Your task to perform on an android device: delete location history Image 0: 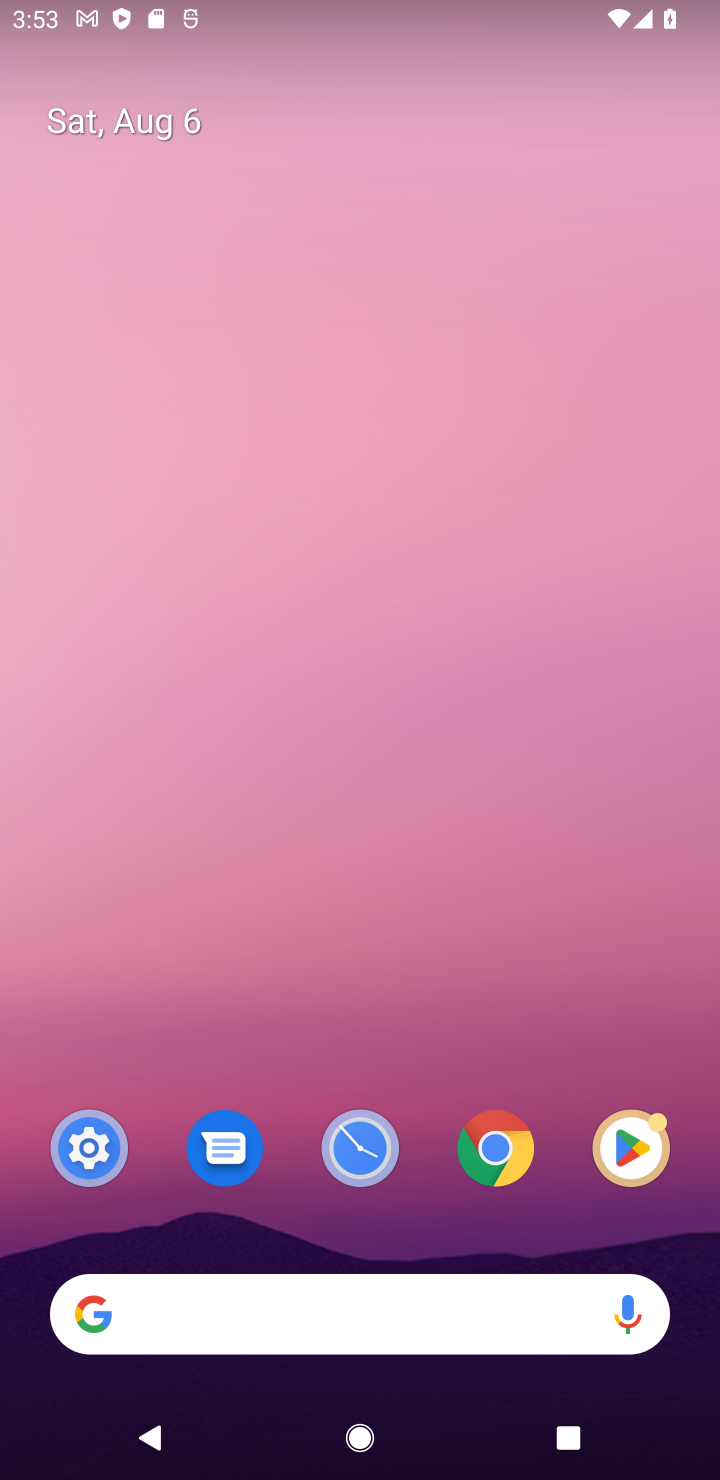
Step 0: press home button
Your task to perform on an android device: delete location history Image 1: 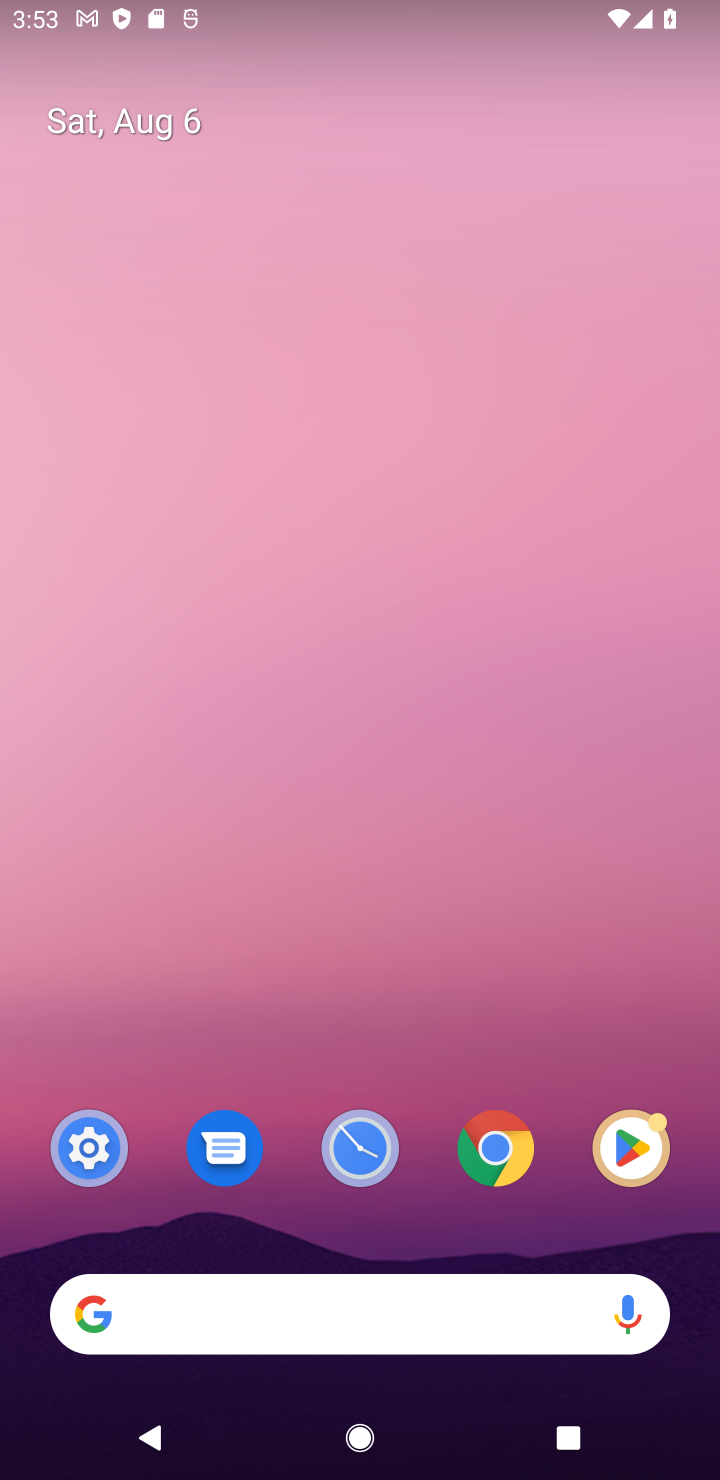
Step 1: click (381, 89)
Your task to perform on an android device: delete location history Image 2: 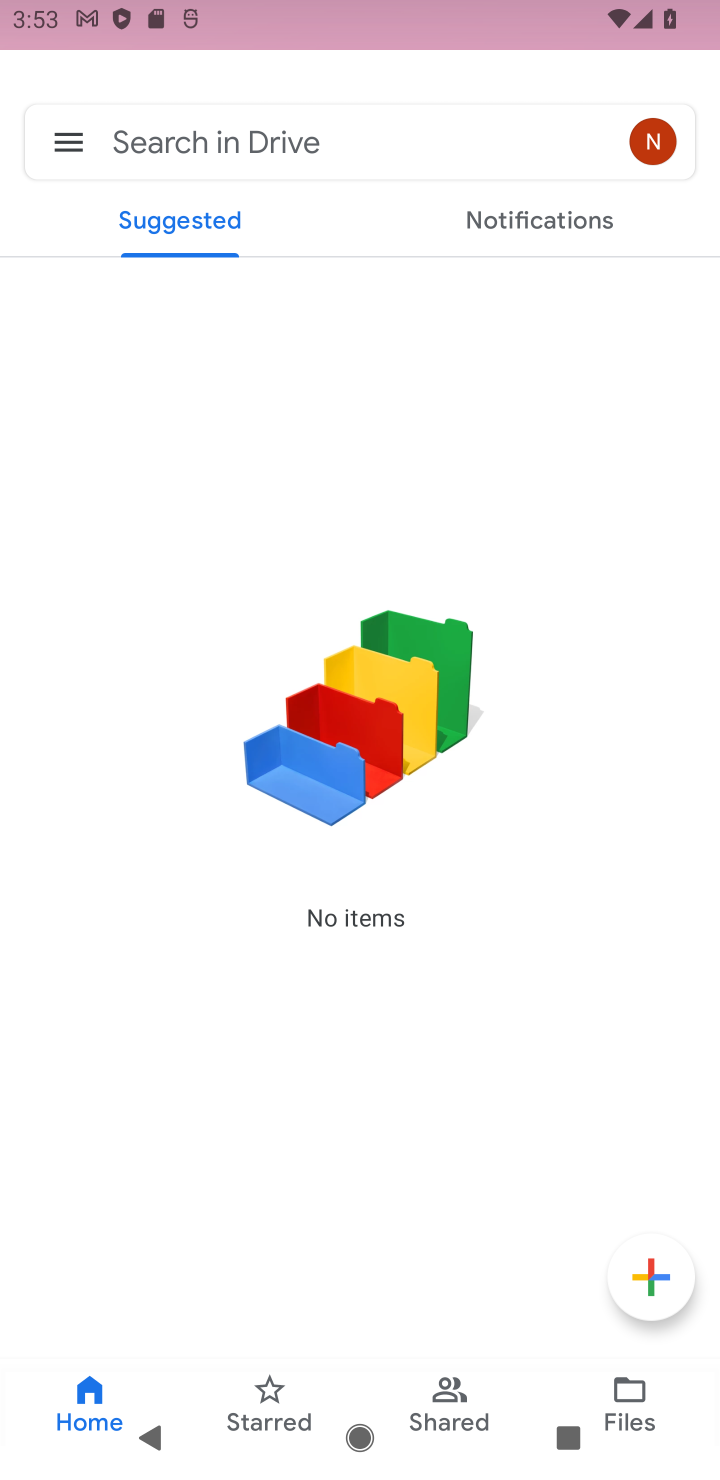
Step 2: drag from (320, 1099) to (374, 137)
Your task to perform on an android device: delete location history Image 3: 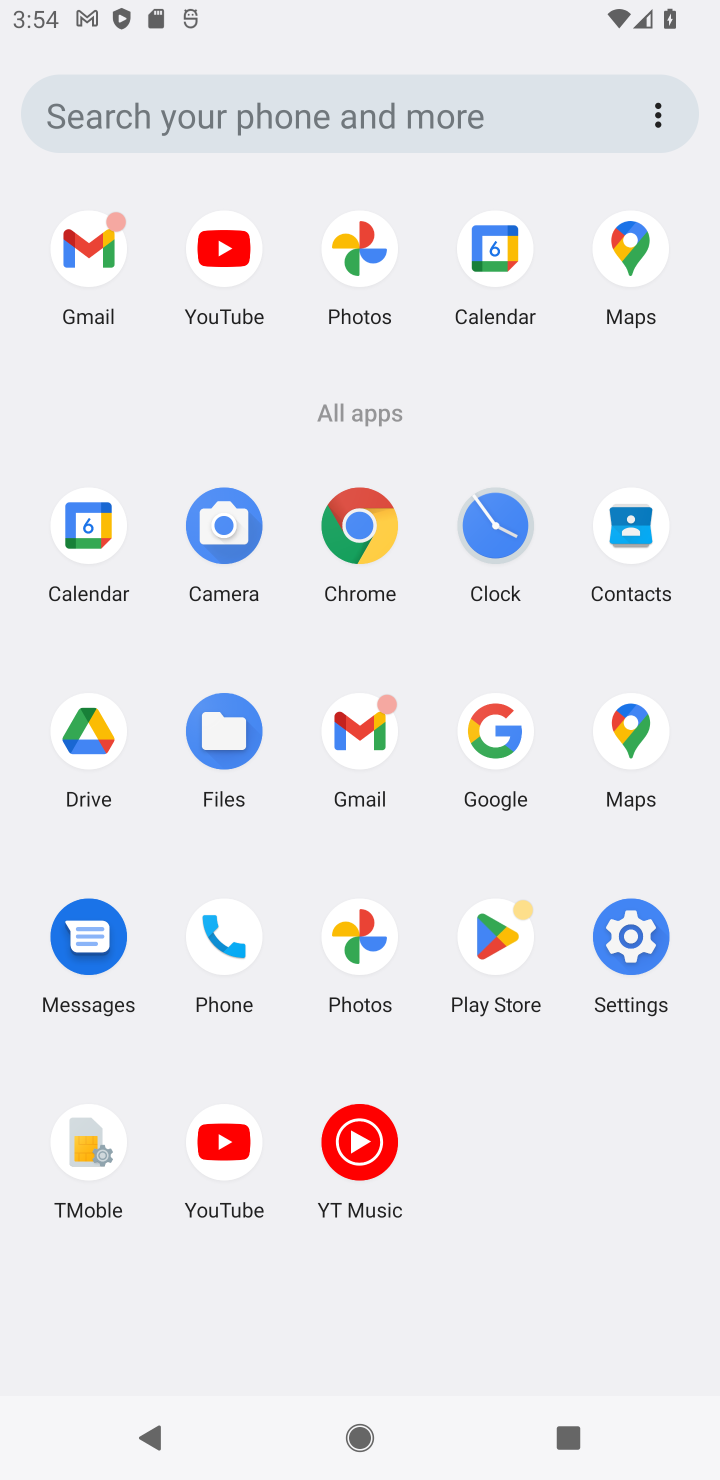
Step 3: drag from (260, 1131) to (331, 719)
Your task to perform on an android device: delete location history Image 4: 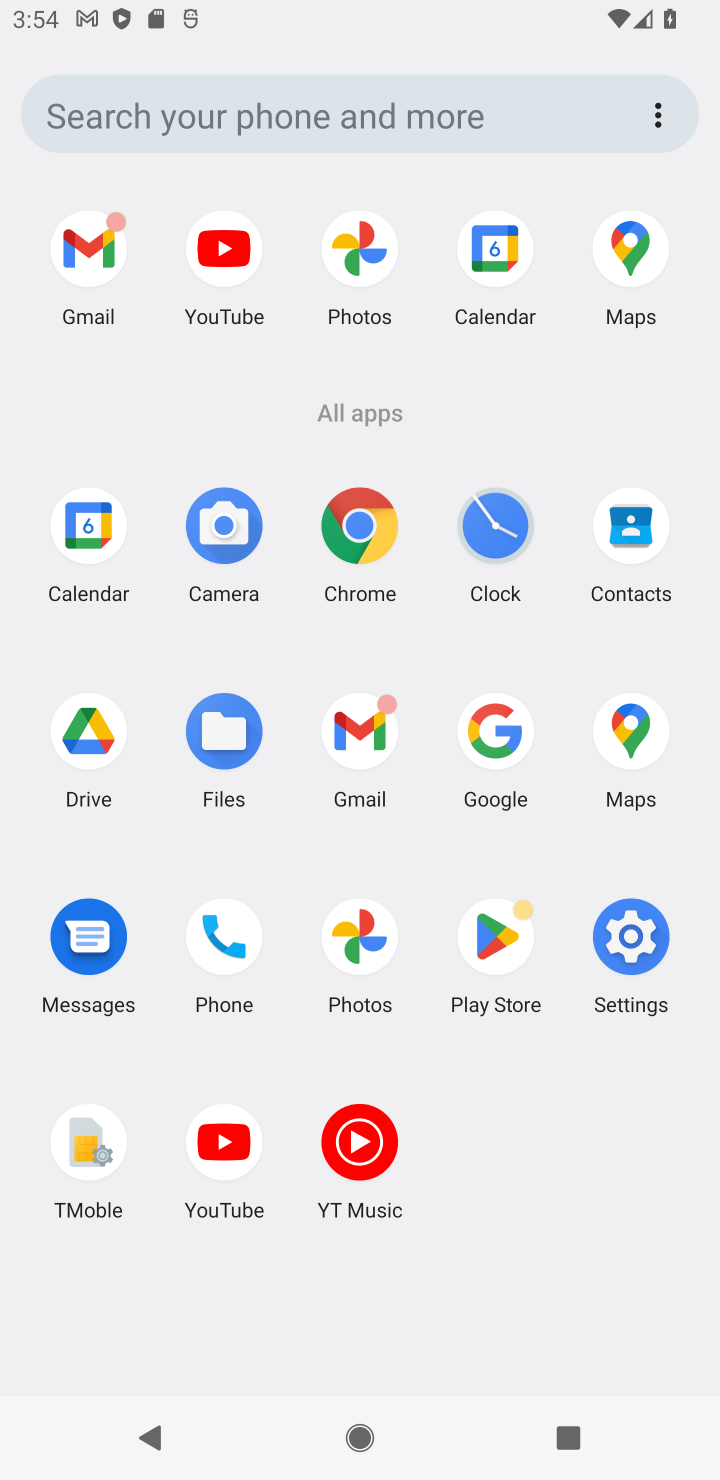
Step 4: click (616, 928)
Your task to perform on an android device: delete location history Image 5: 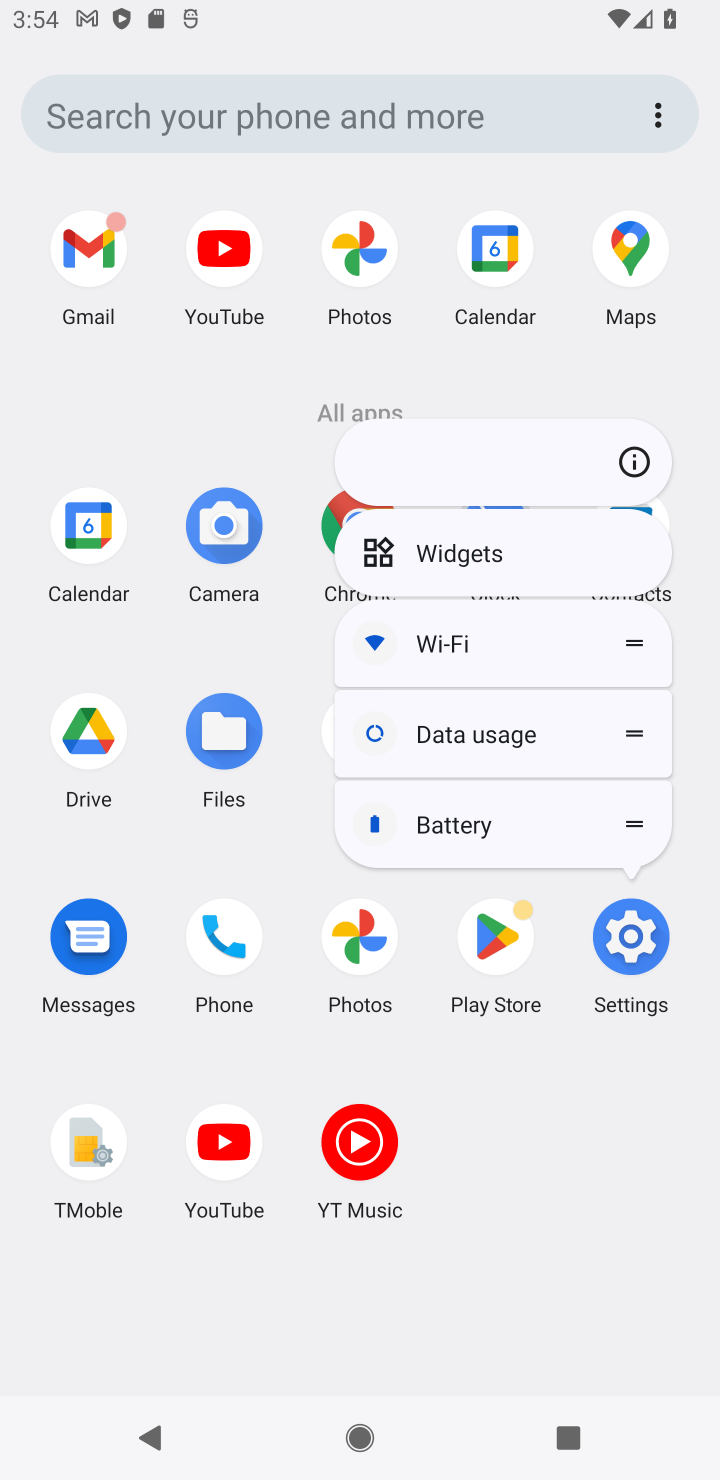
Step 5: click (635, 476)
Your task to perform on an android device: delete location history Image 6: 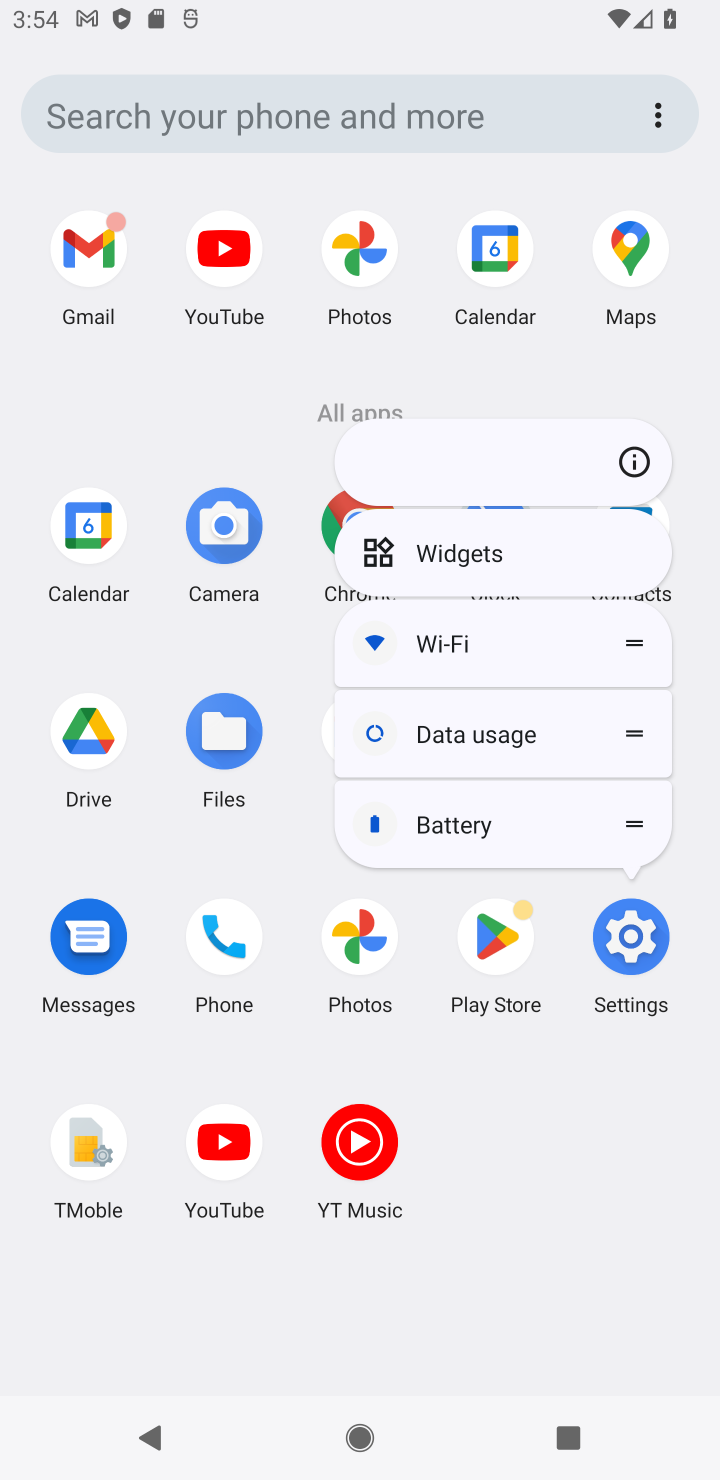
Step 6: click (633, 459)
Your task to perform on an android device: delete location history Image 7: 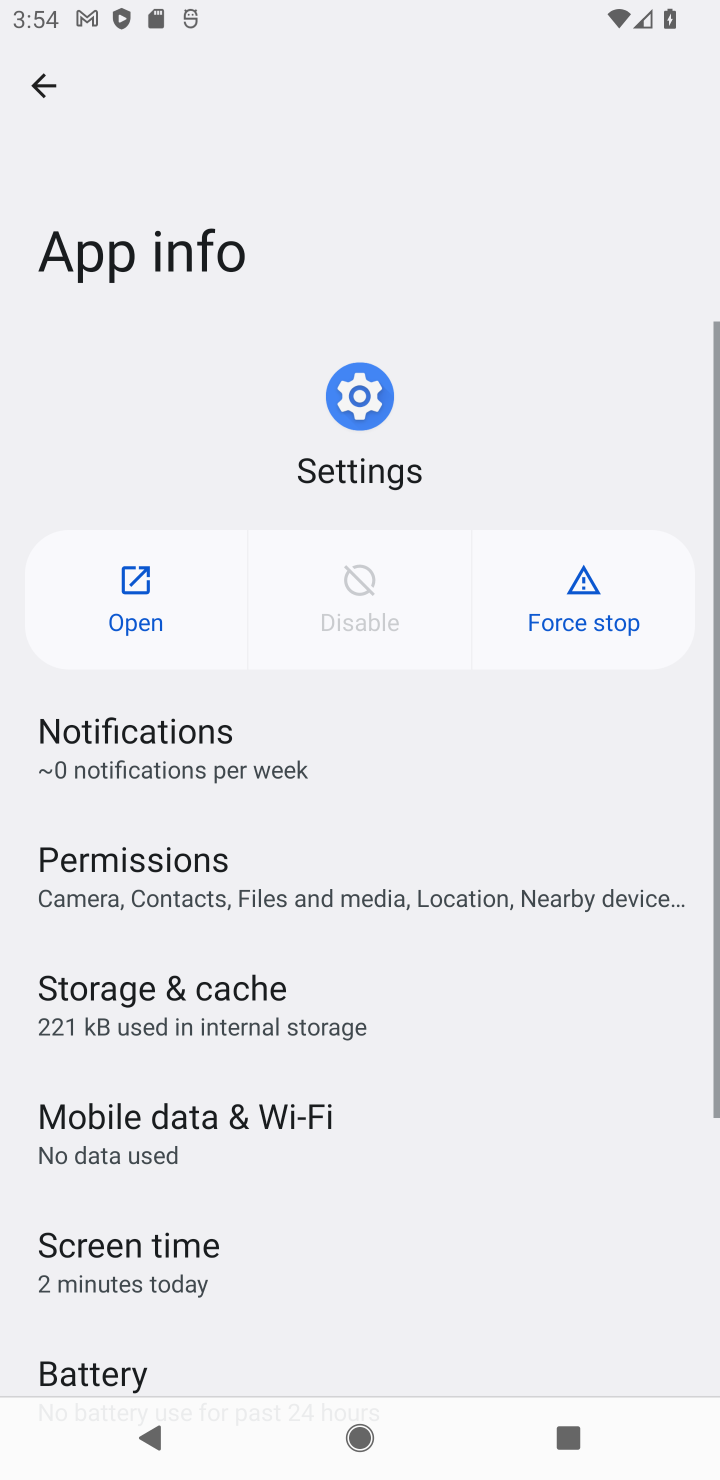
Step 7: click (119, 632)
Your task to perform on an android device: delete location history Image 8: 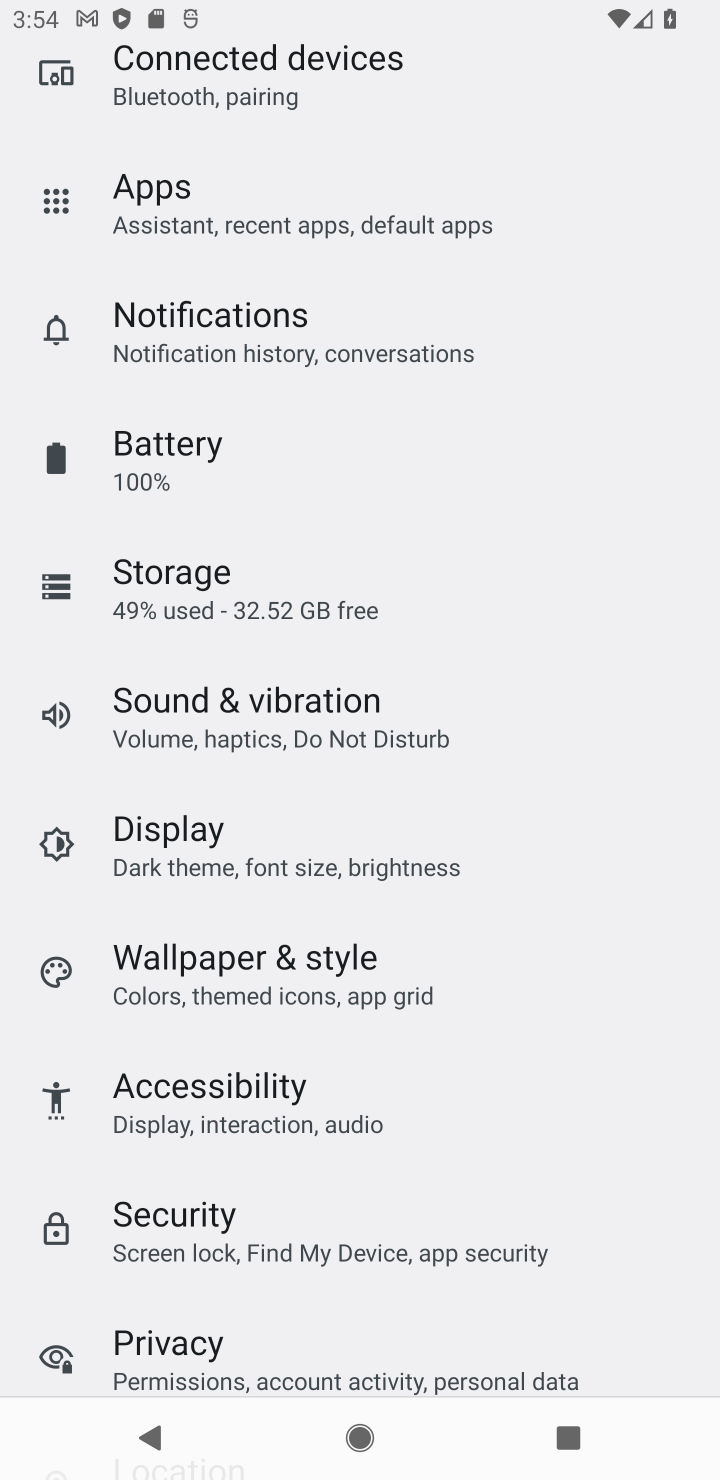
Step 8: drag from (401, 586) to (328, 1475)
Your task to perform on an android device: delete location history Image 9: 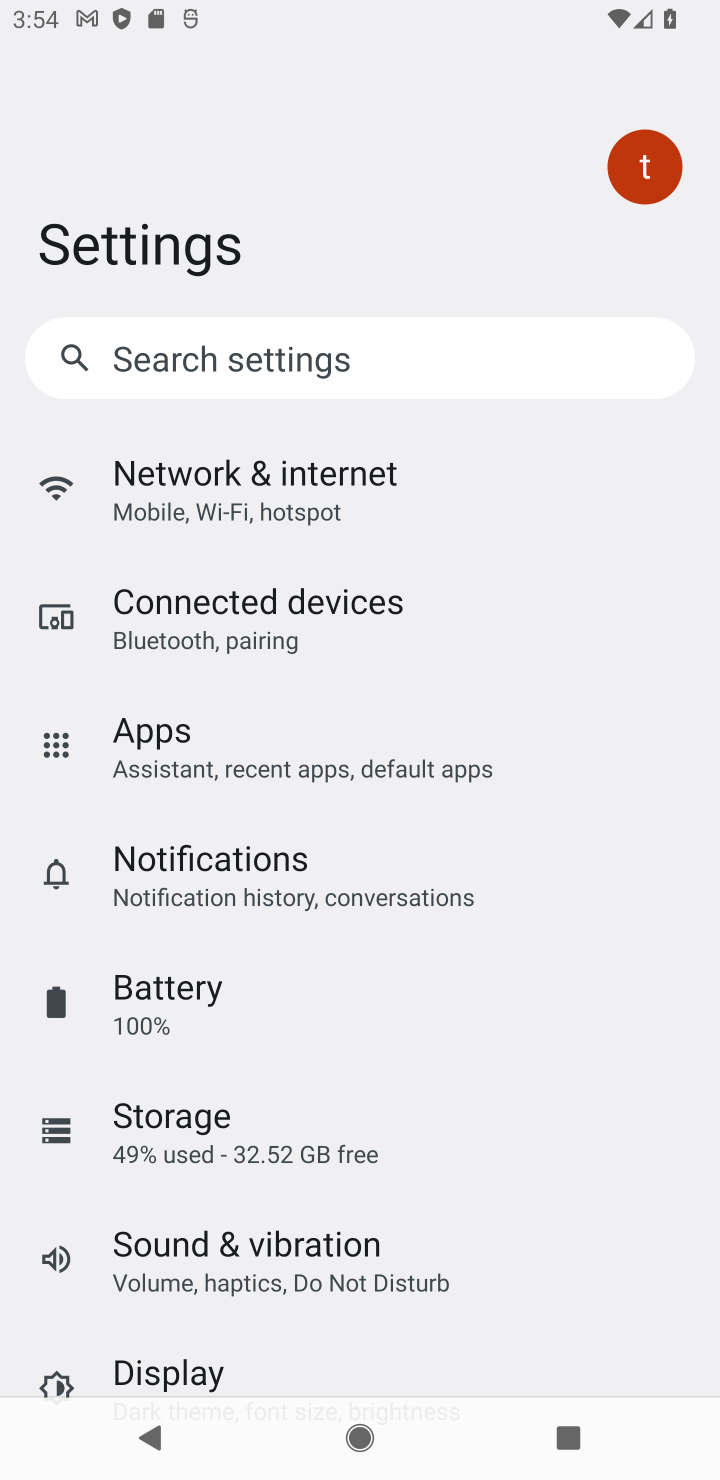
Step 9: drag from (279, 1181) to (279, 339)
Your task to perform on an android device: delete location history Image 10: 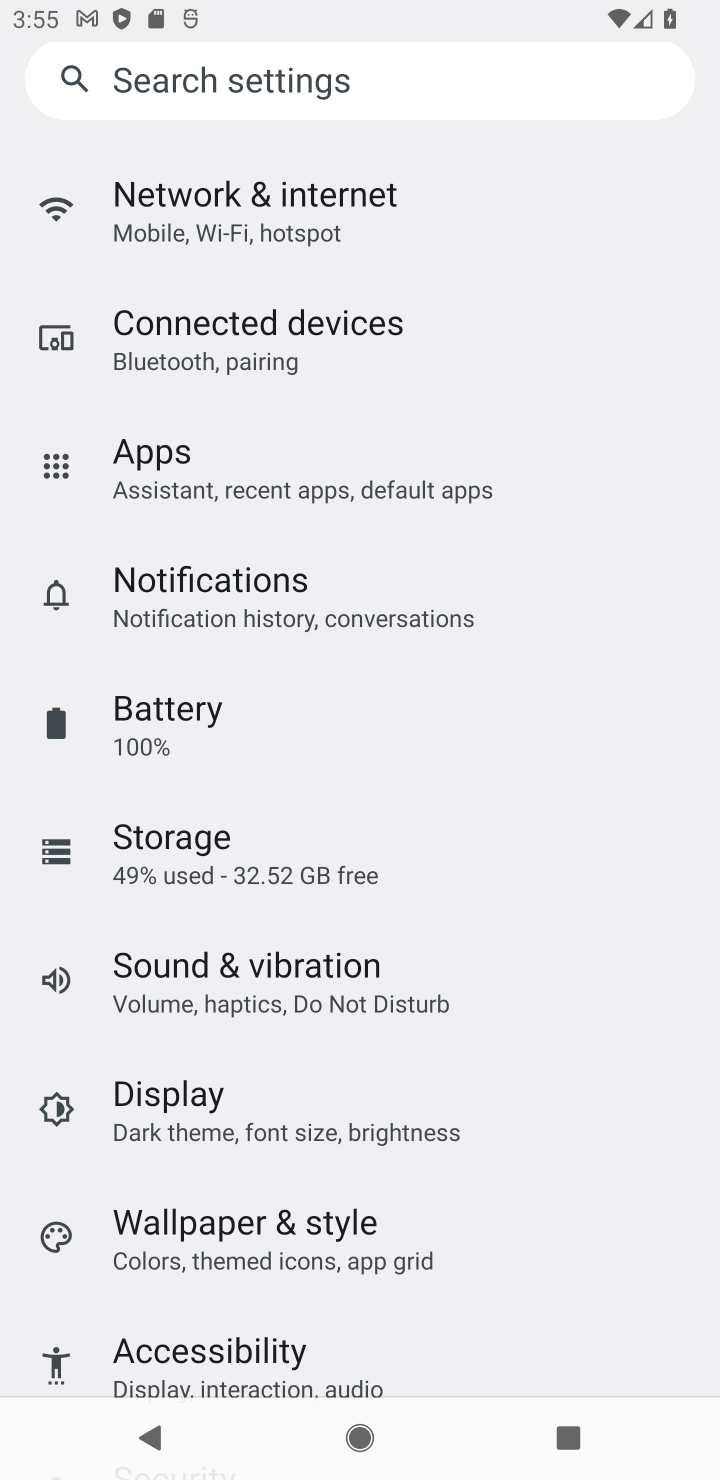
Step 10: drag from (303, 1193) to (386, 538)
Your task to perform on an android device: delete location history Image 11: 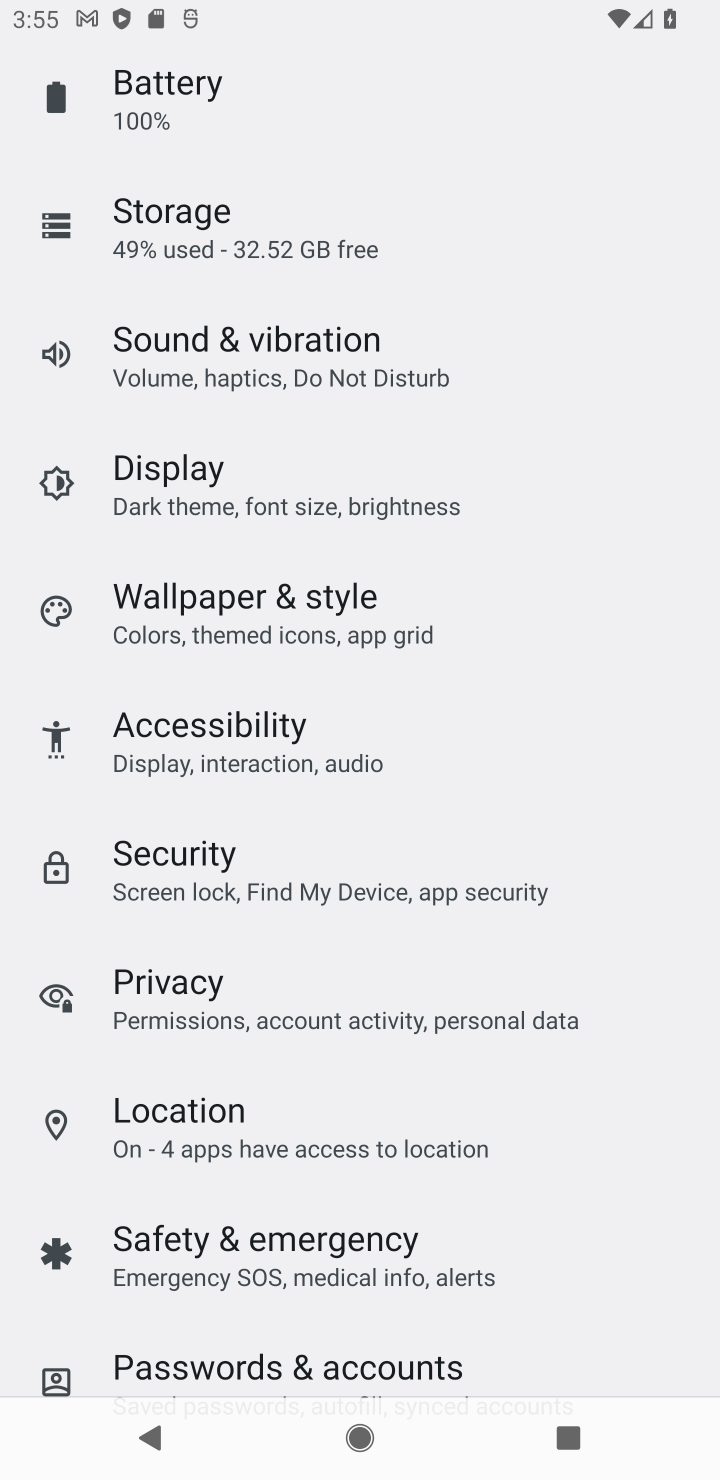
Step 11: click (213, 1135)
Your task to perform on an android device: delete location history Image 12: 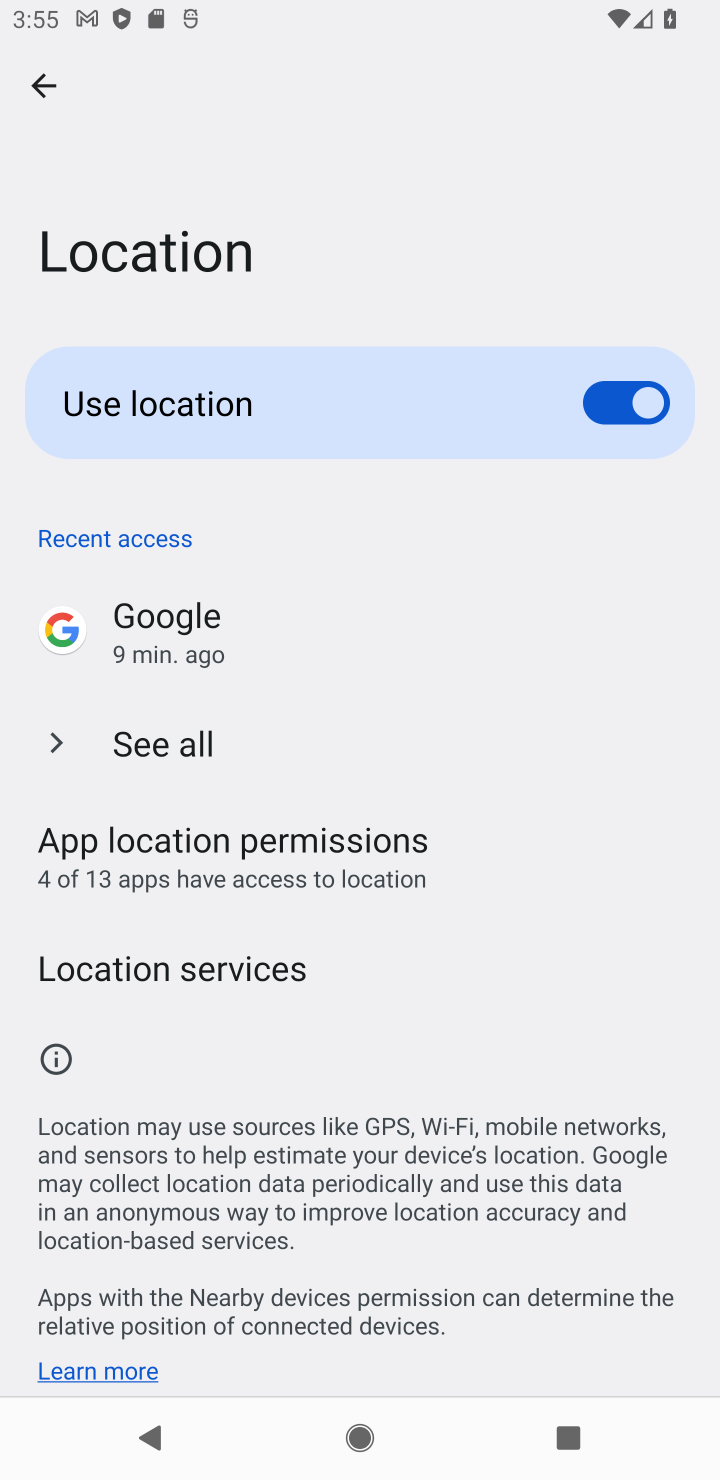
Step 12: click (152, 988)
Your task to perform on an android device: delete location history Image 13: 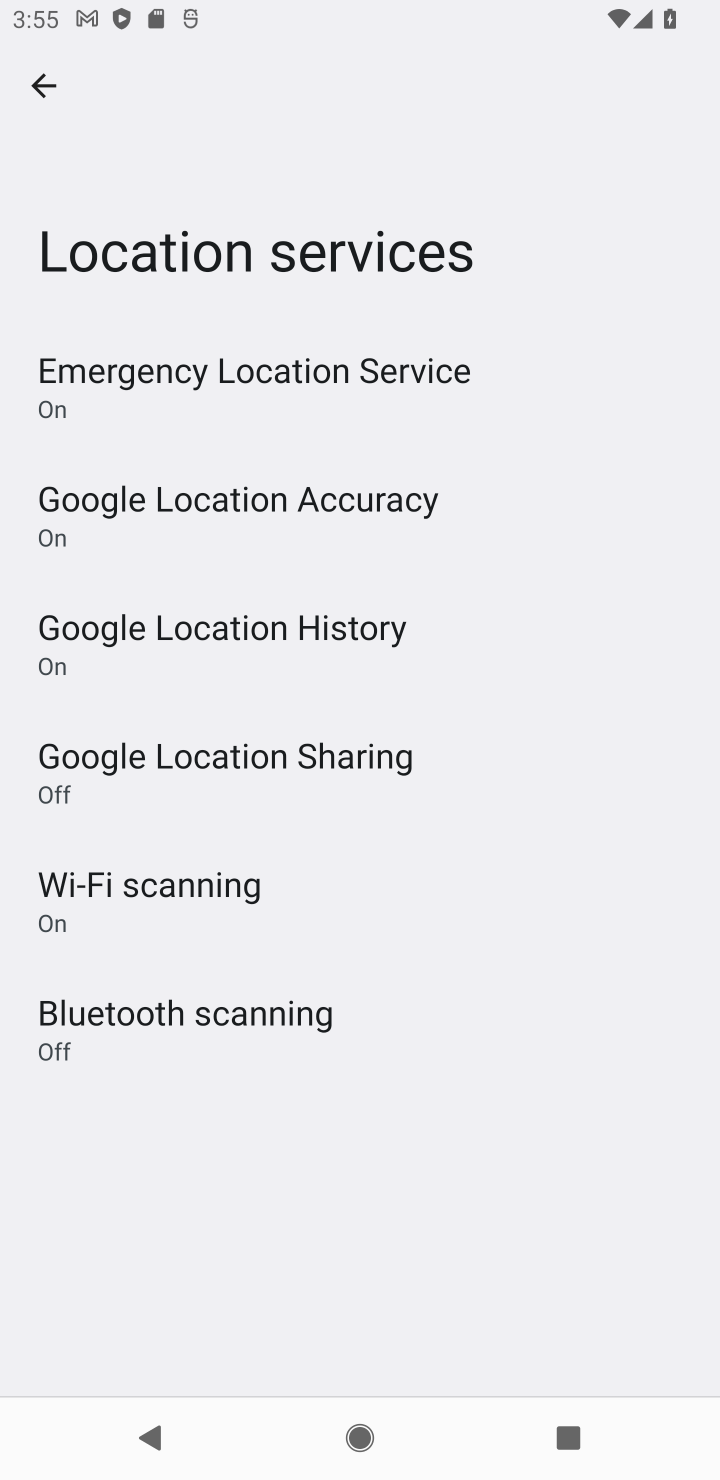
Step 13: click (338, 619)
Your task to perform on an android device: delete location history Image 14: 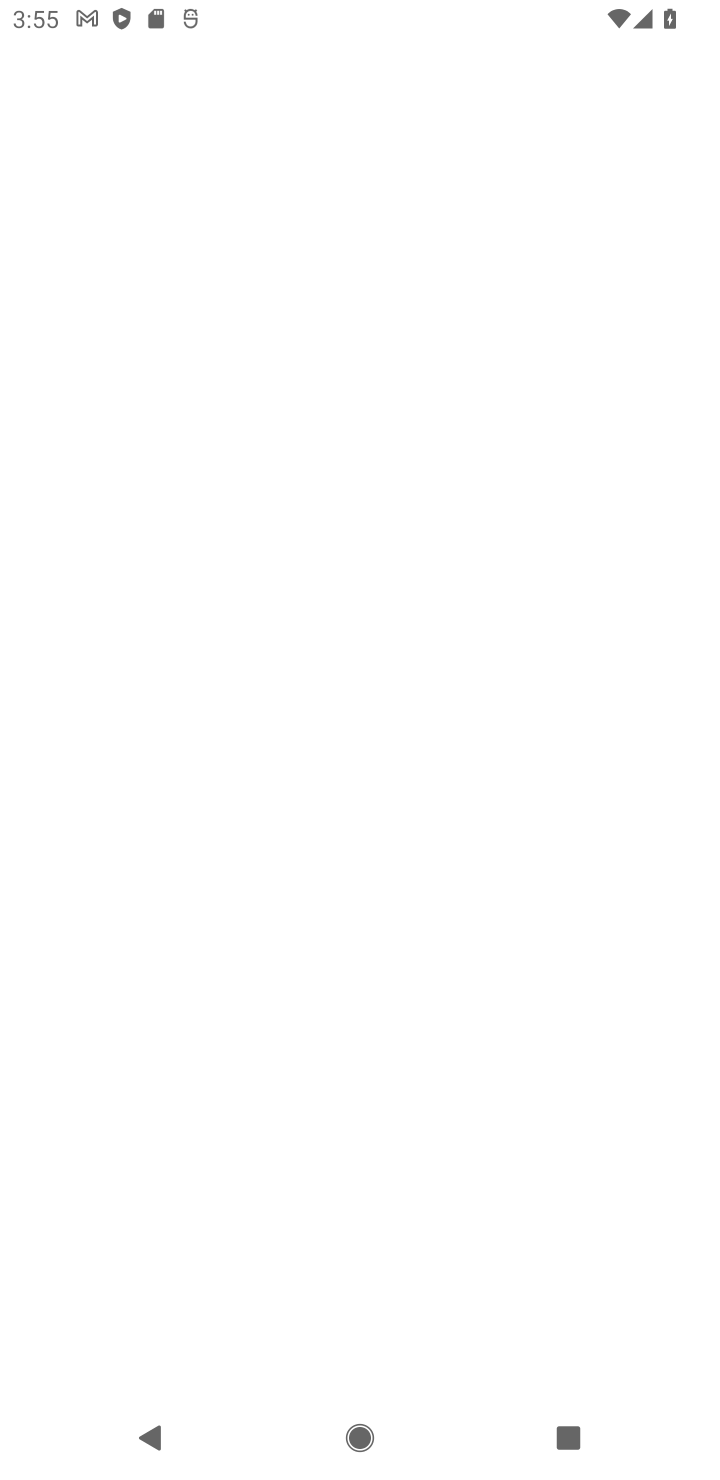
Step 14: drag from (386, 859) to (409, 295)
Your task to perform on an android device: delete location history Image 15: 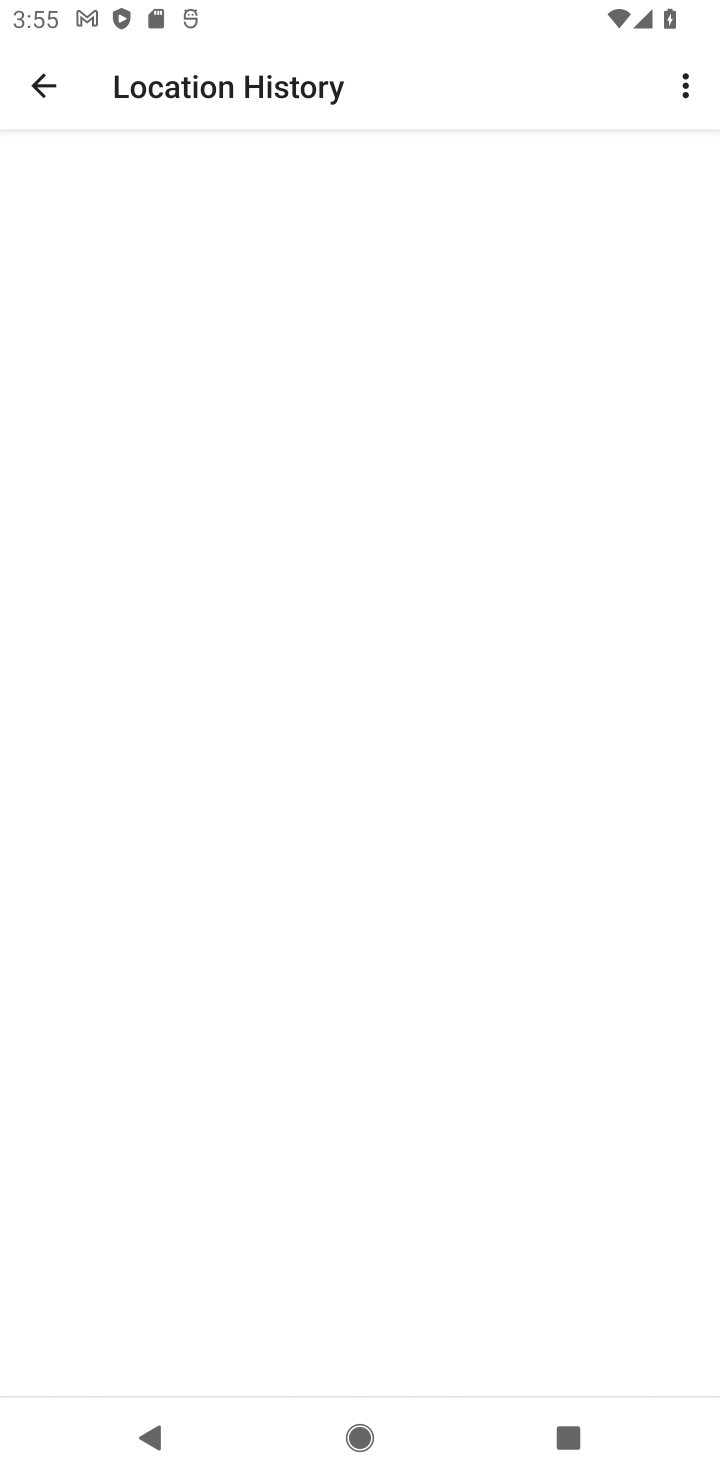
Step 15: drag from (336, 922) to (454, 290)
Your task to perform on an android device: delete location history Image 16: 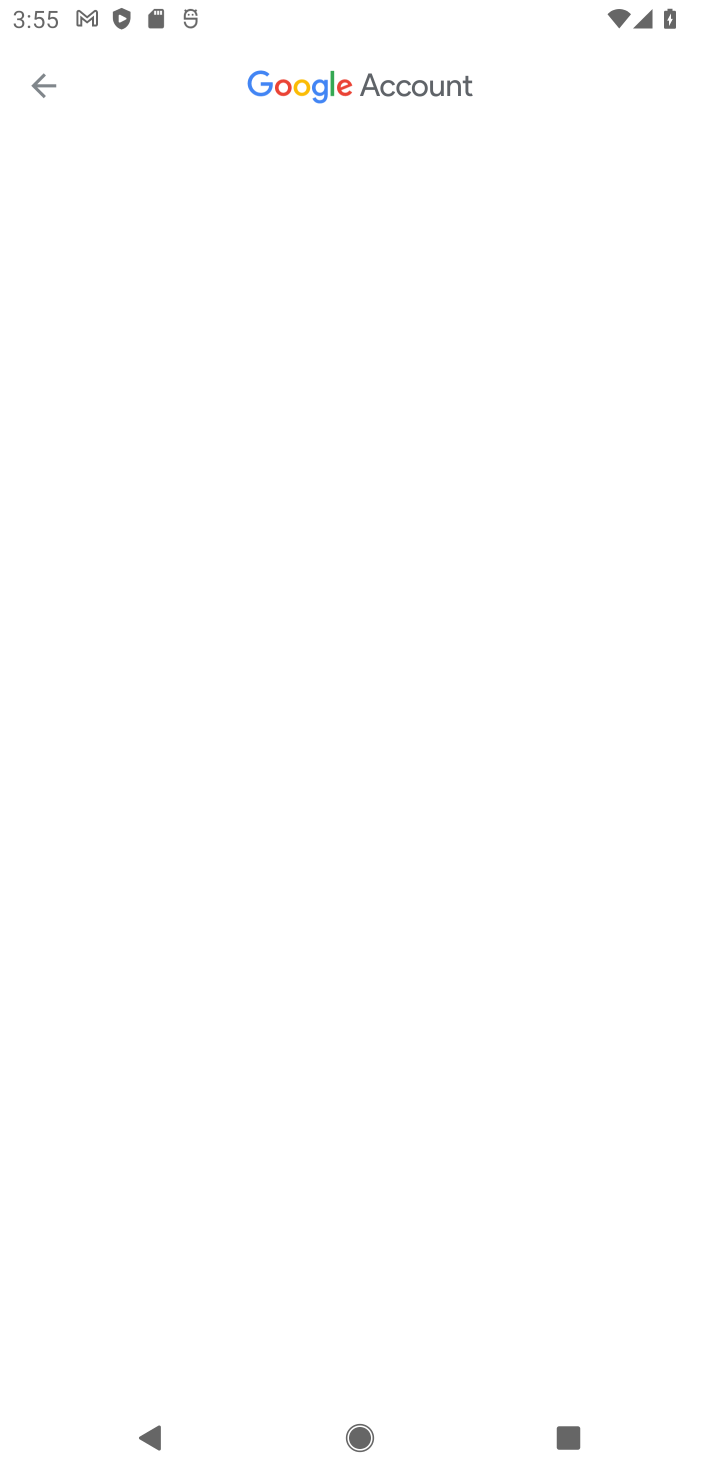
Step 16: drag from (297, 990) to (521, 405)
Your task to perform on an android device: delete location history Image 17: 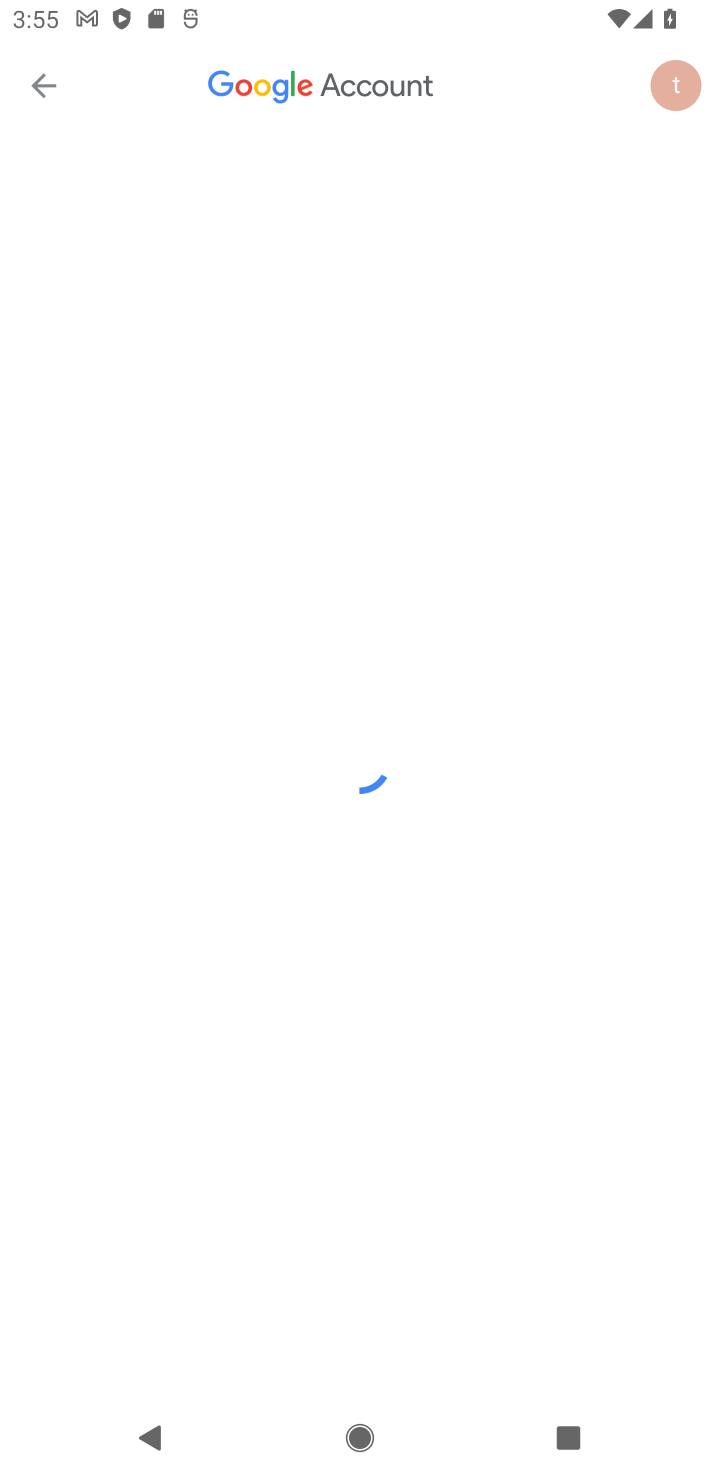
Step 17: drag from (360, 1007) to (432, 438)
Your task to perform on an android device: delete location history Image 18: 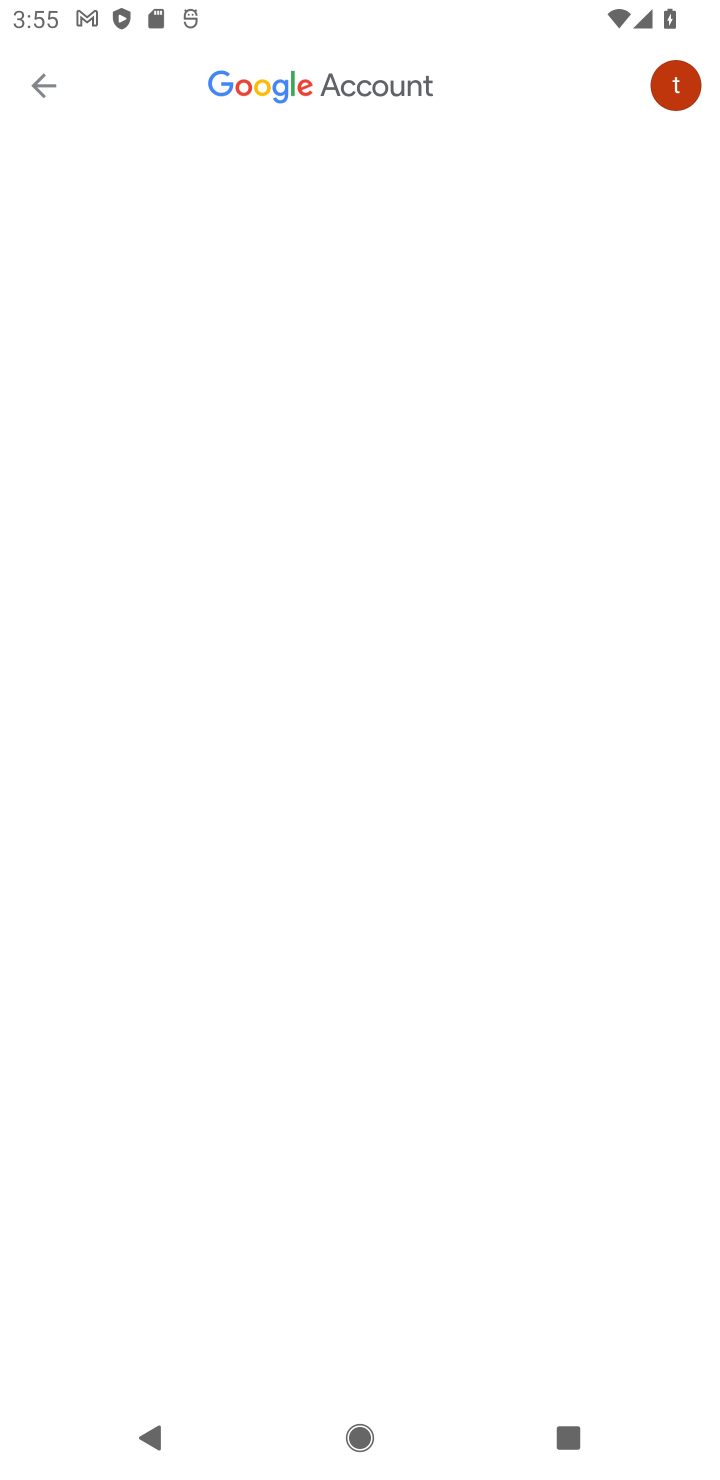
Step 18: drag from (369, 1023) to (423, 436)
Your task to perform on an android device: delete location history Image 19: 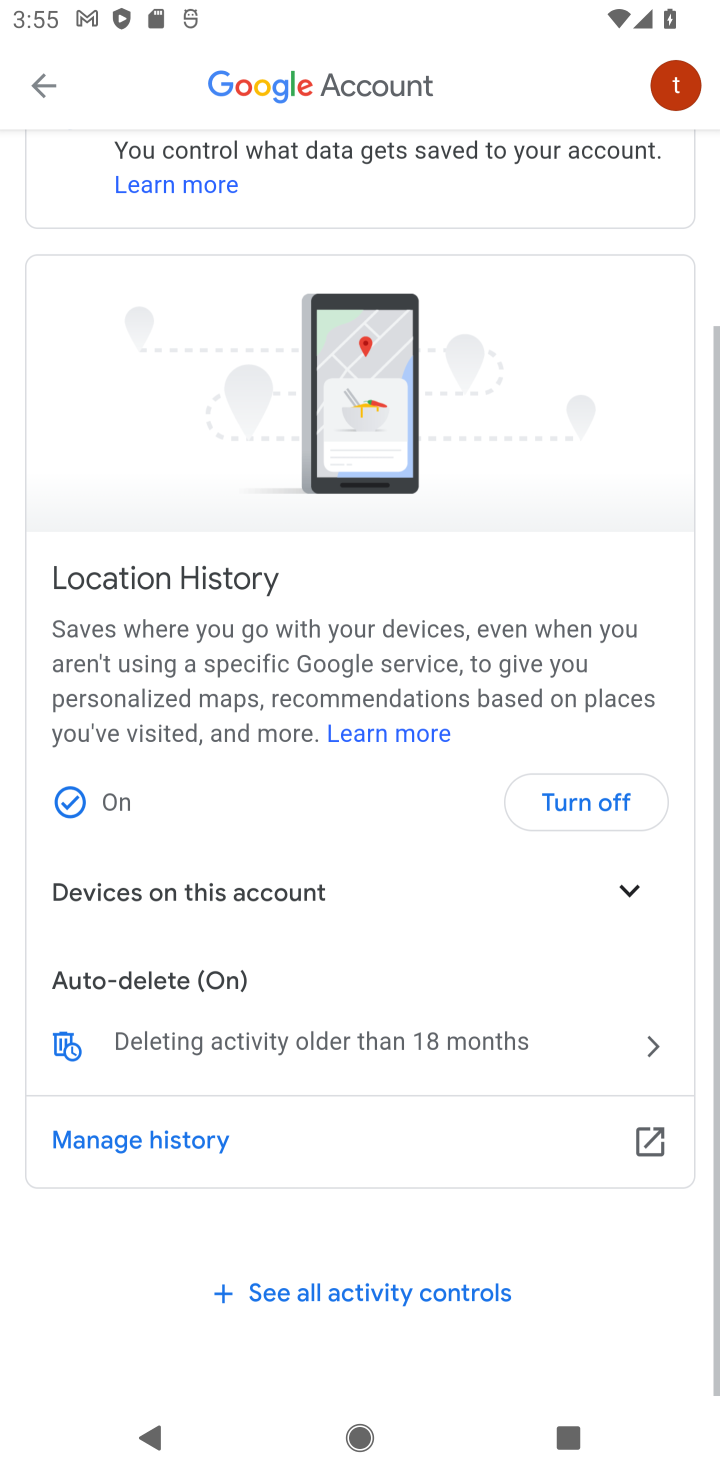
Step 19: drag from (371, 940) to (449, 425)
Your task to perform on an android device: delete location history Image 20: 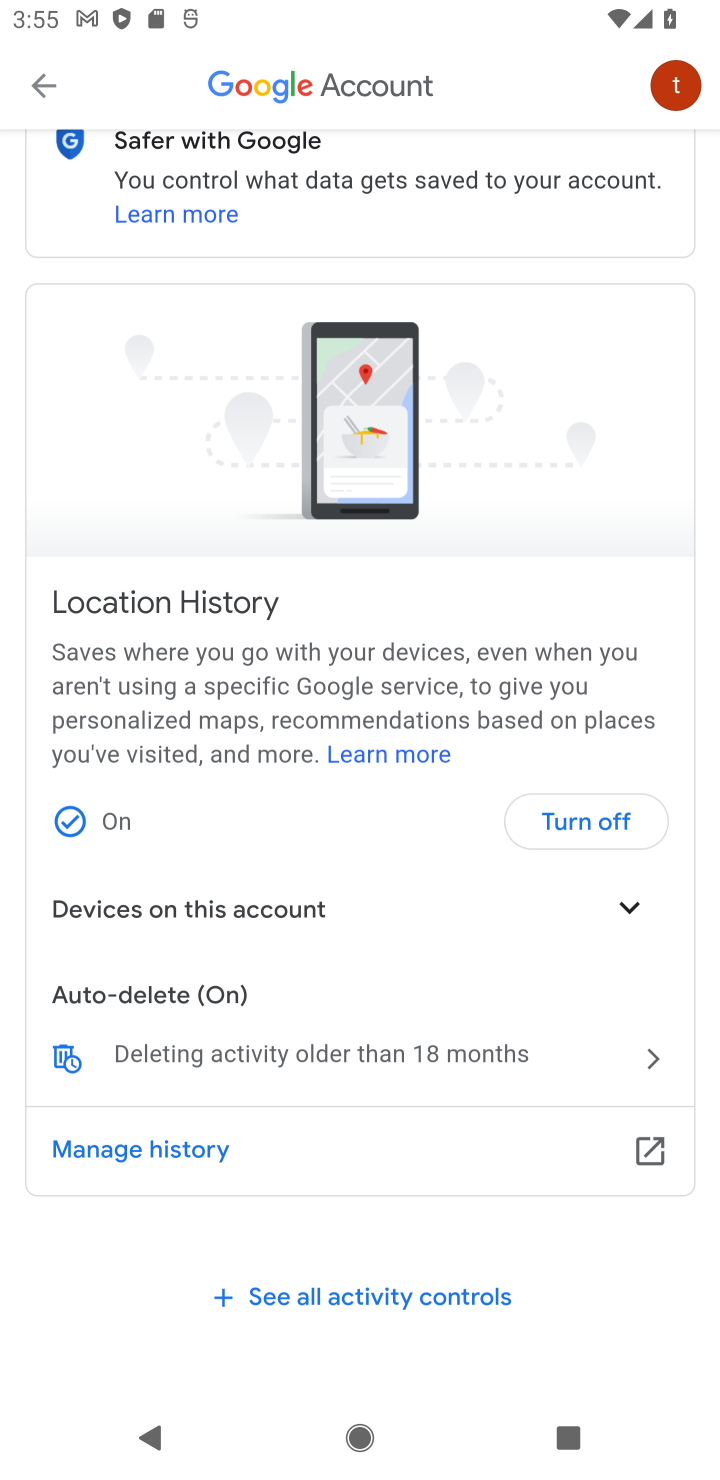
Step 20: drag from (322, 901) to (311, 416)
Your task to perform on an android device: delete location history Image 21: 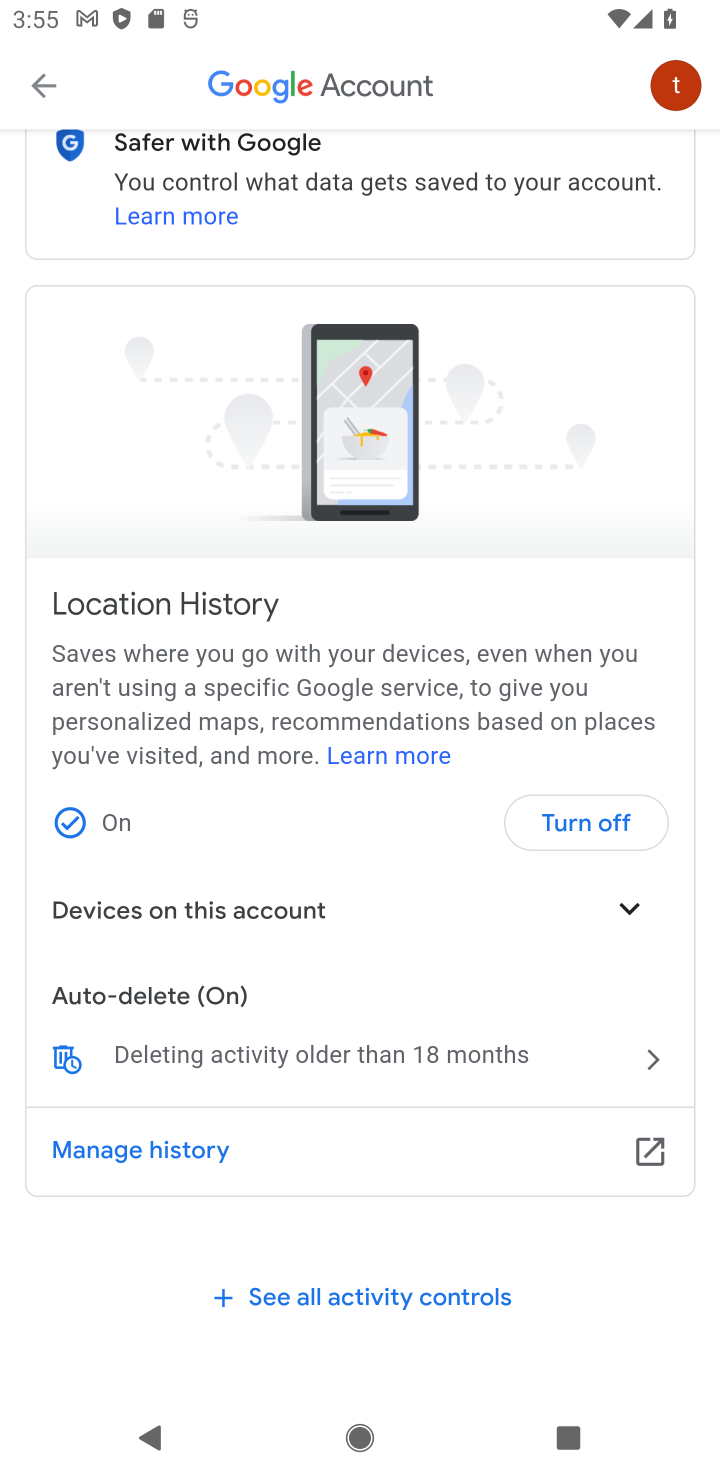
Step 21: click (22, 1050)
Your task to perform on an android device: delete location history Image 22: 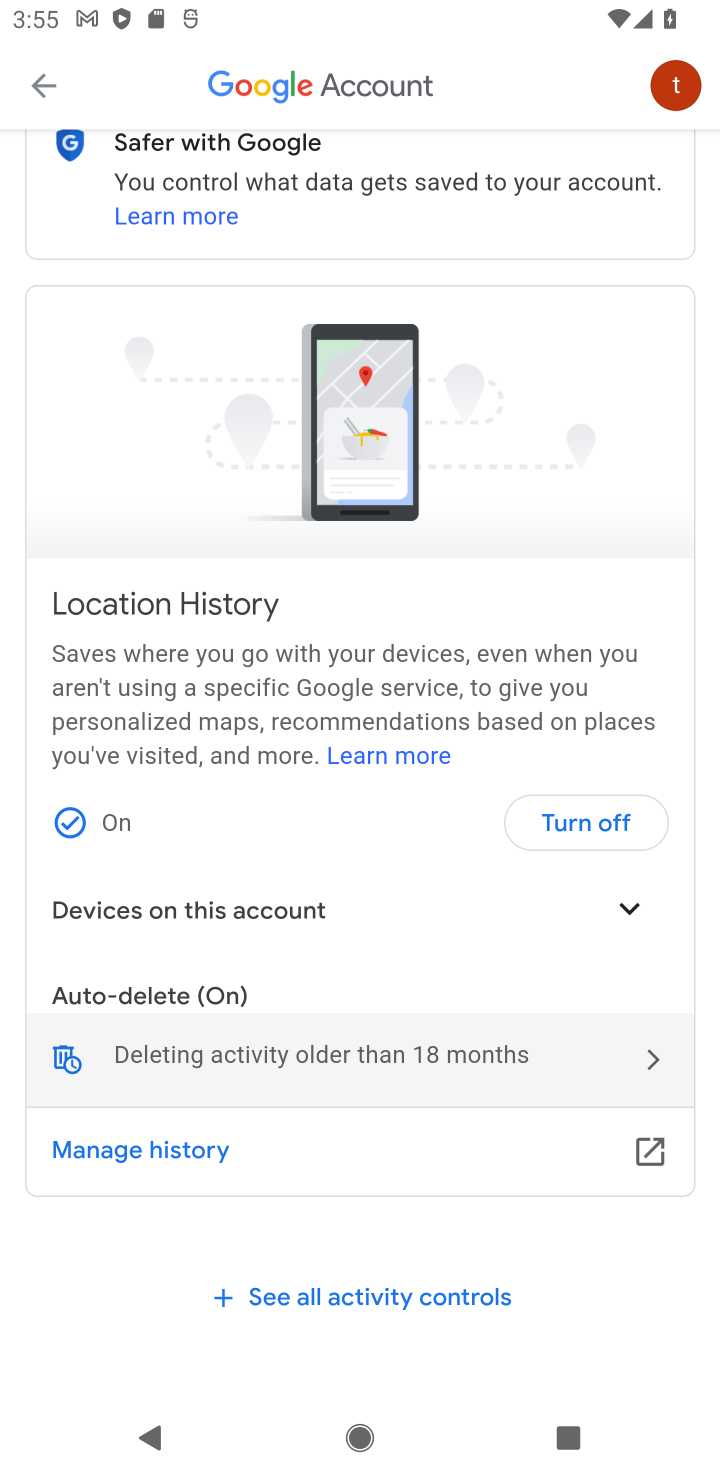
Step 22: click (82, 1074)
Your task to perform on an android device: delete location history Image 23: 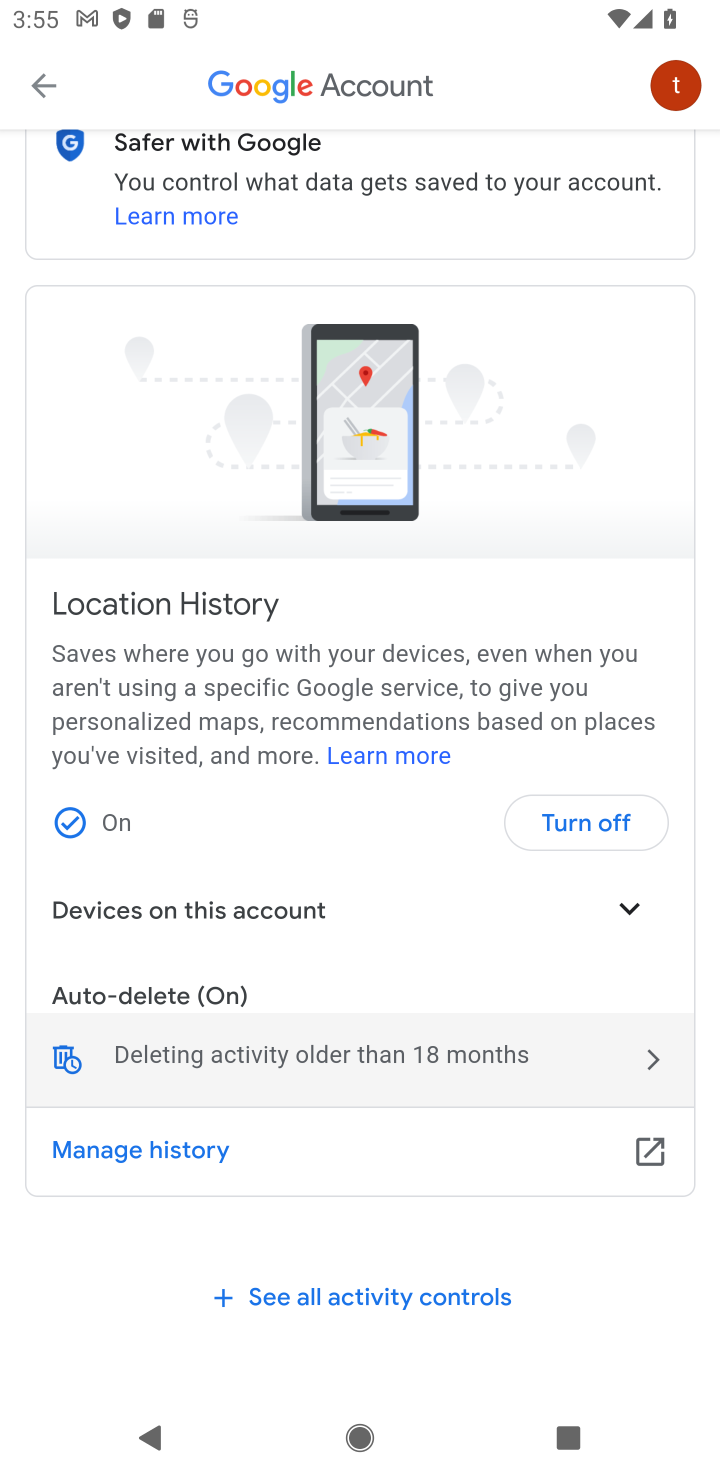
Step 23: click (76, 1072)
Your task to perform on an android device: delete location history Image 24: 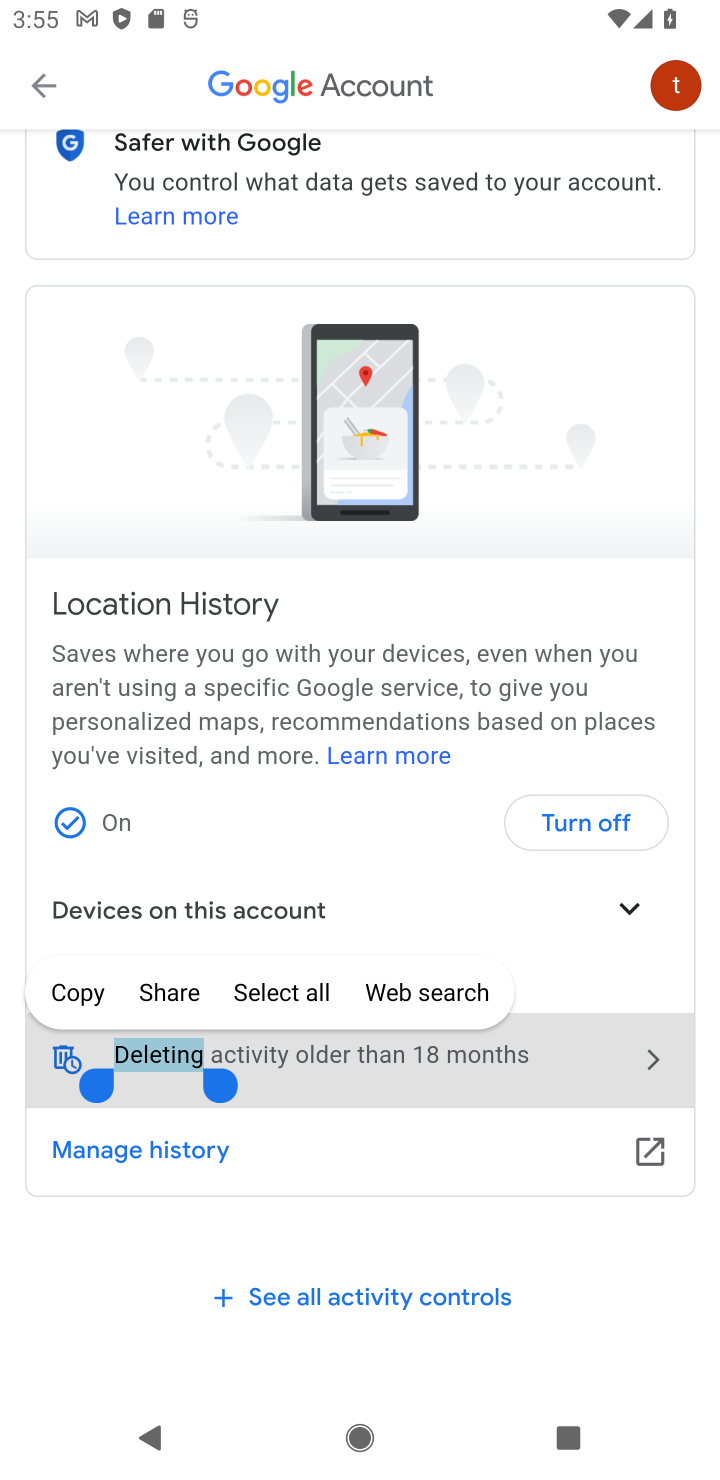
Step 24: click (63, 1051)
Your task to perform on an android device: delete location history Image 25: 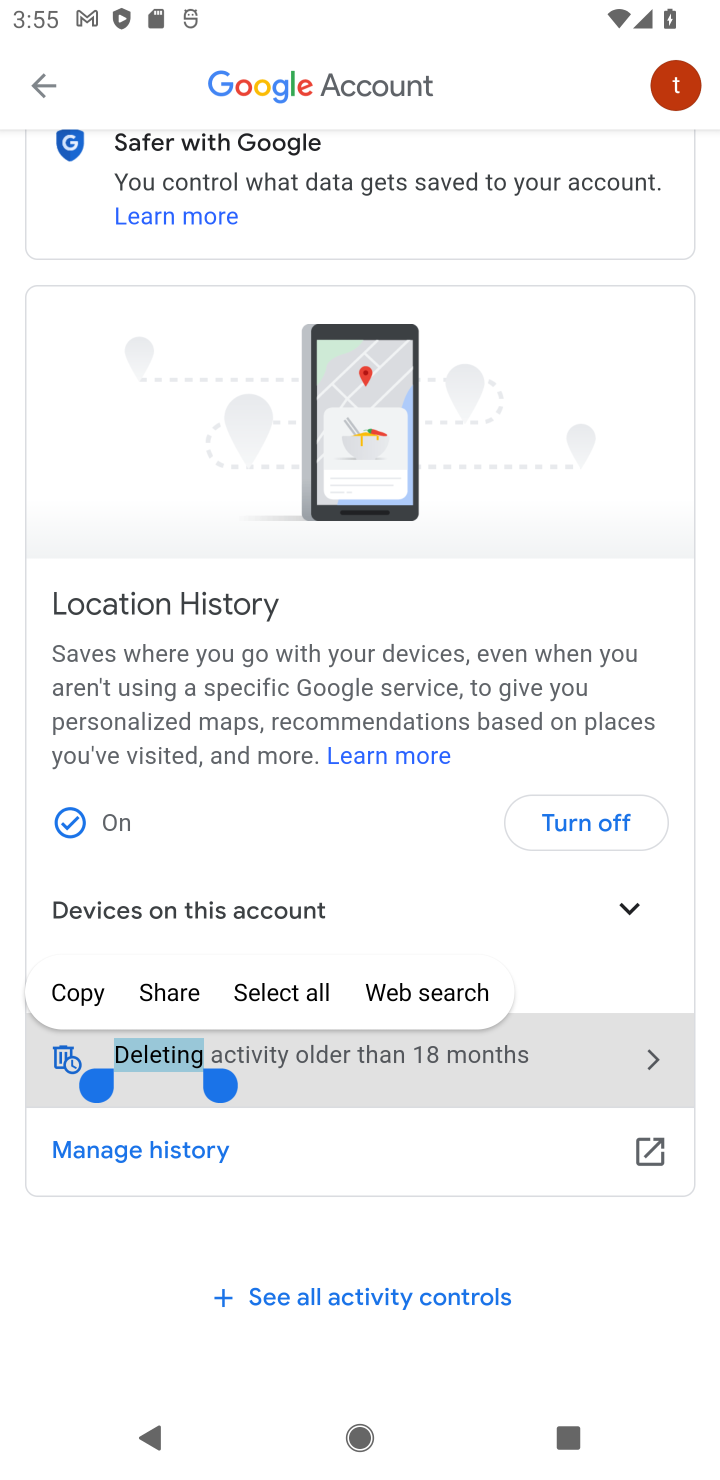
Step 25: click (487, 1066)
Your task to perform on an android device: delete location history Image 26: 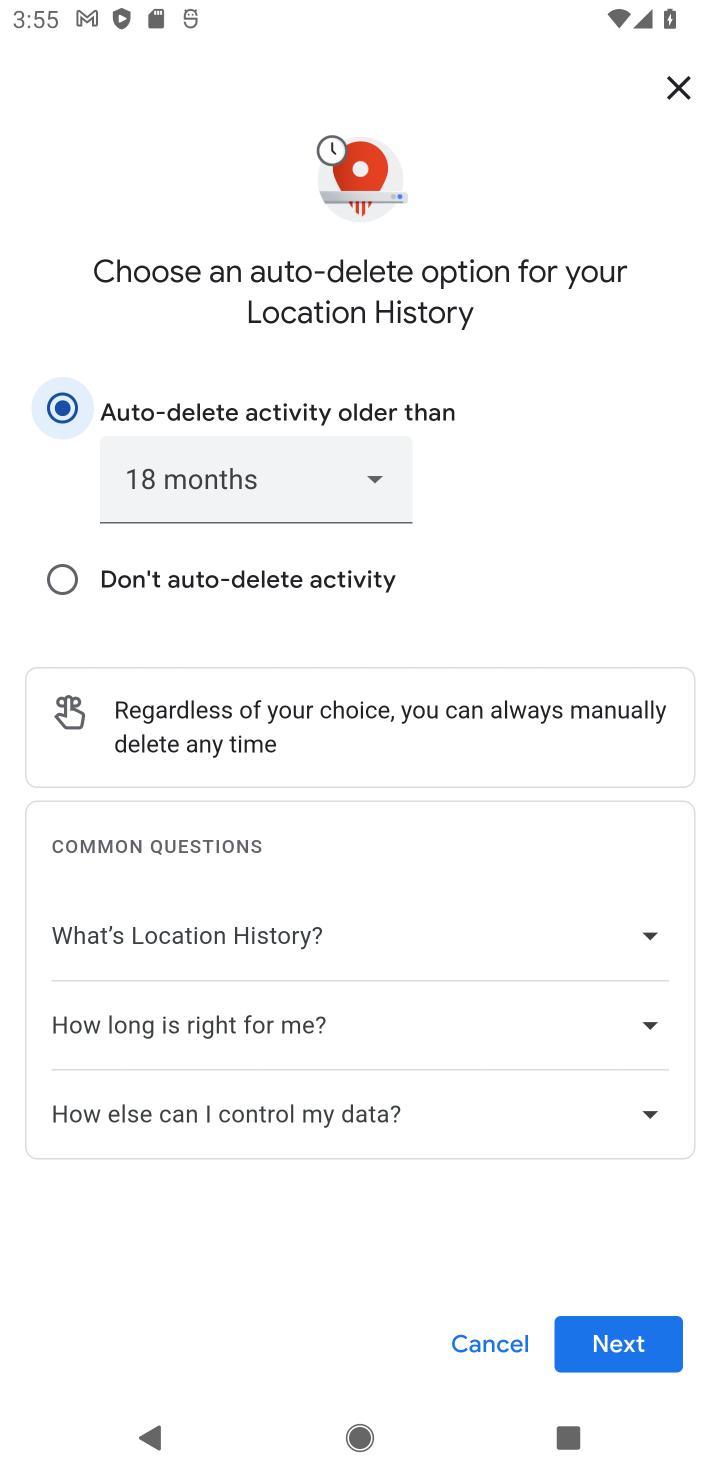
Step 26: drag from (414, 1082) to (509, 579)
Your task to perform on an android device: delete location history Image 27: 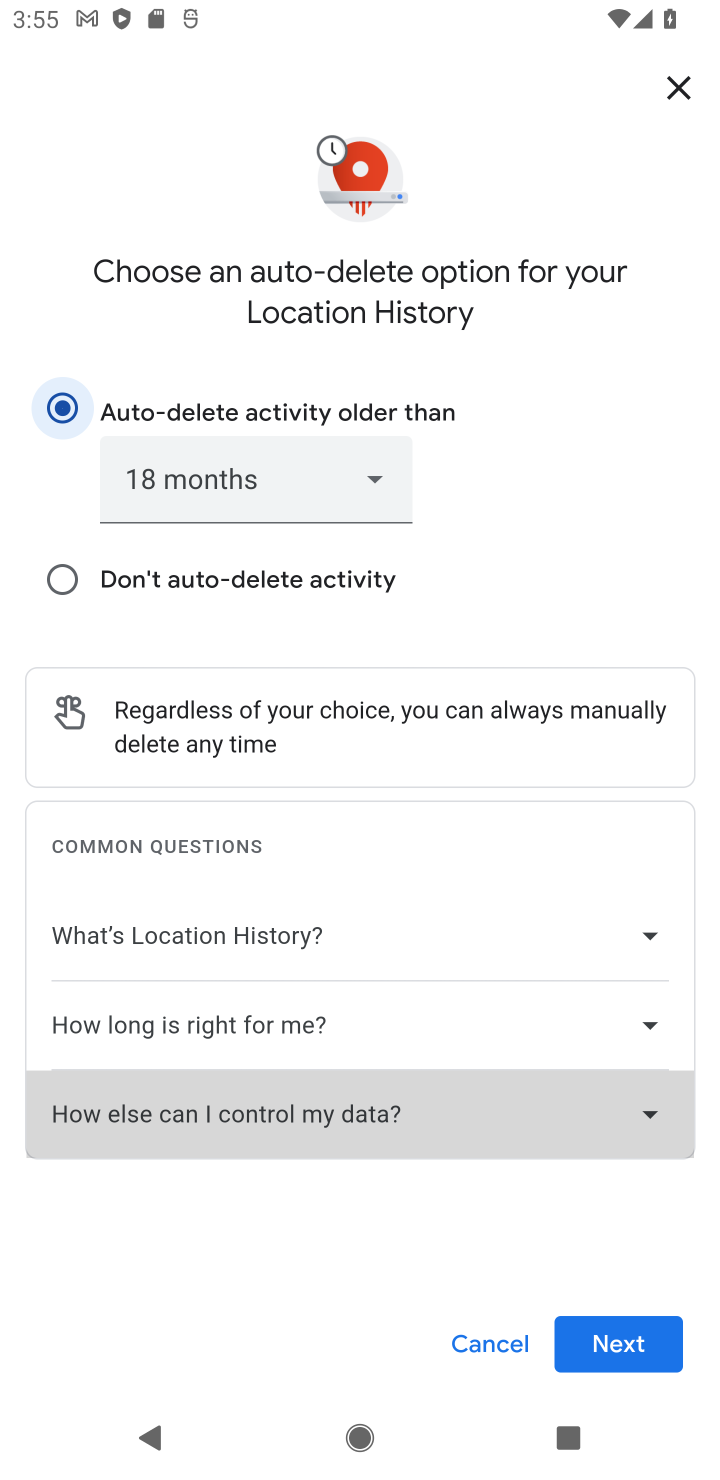
Step 27: click (649, 1326)
Your task to perform on an android device: delete location history Image 28: 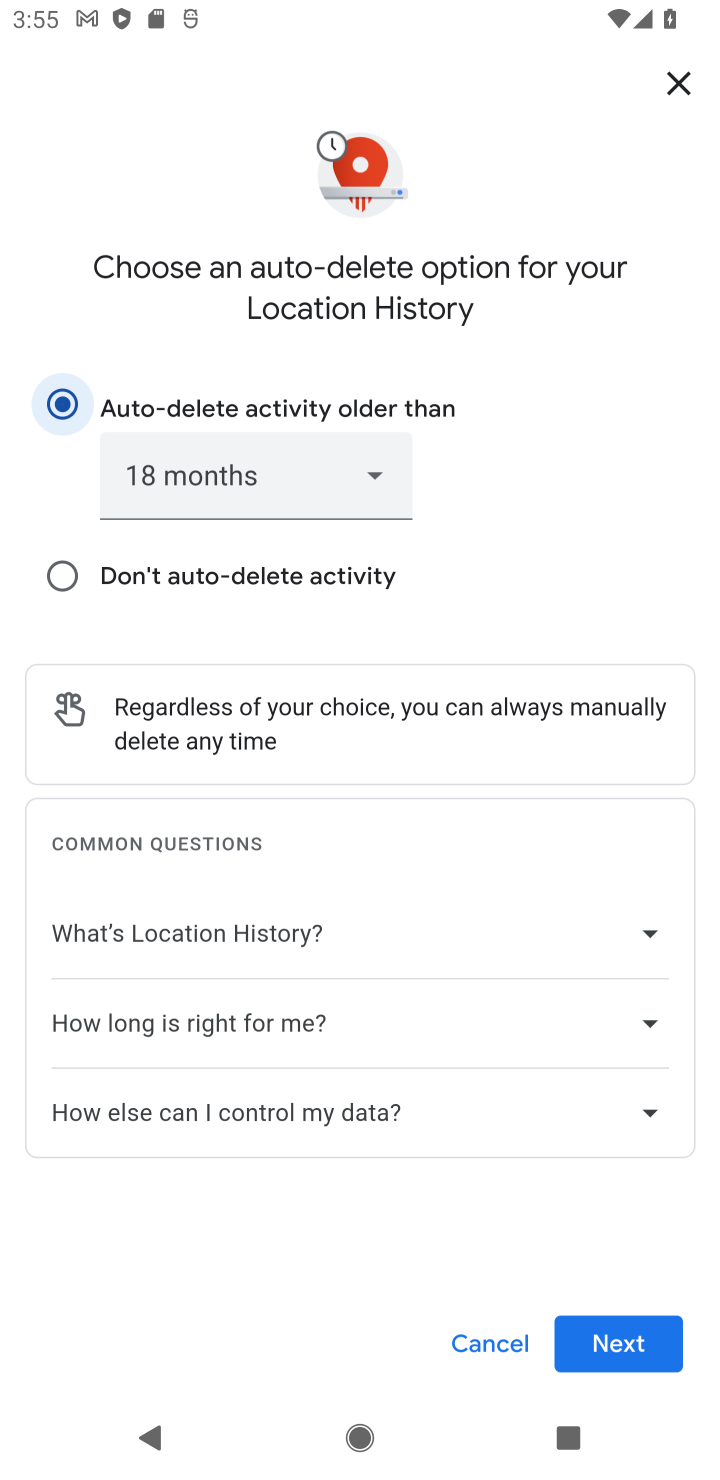
Step 28: click (645, 1326)
Your task to perform on an android device: delete location history Image 29: 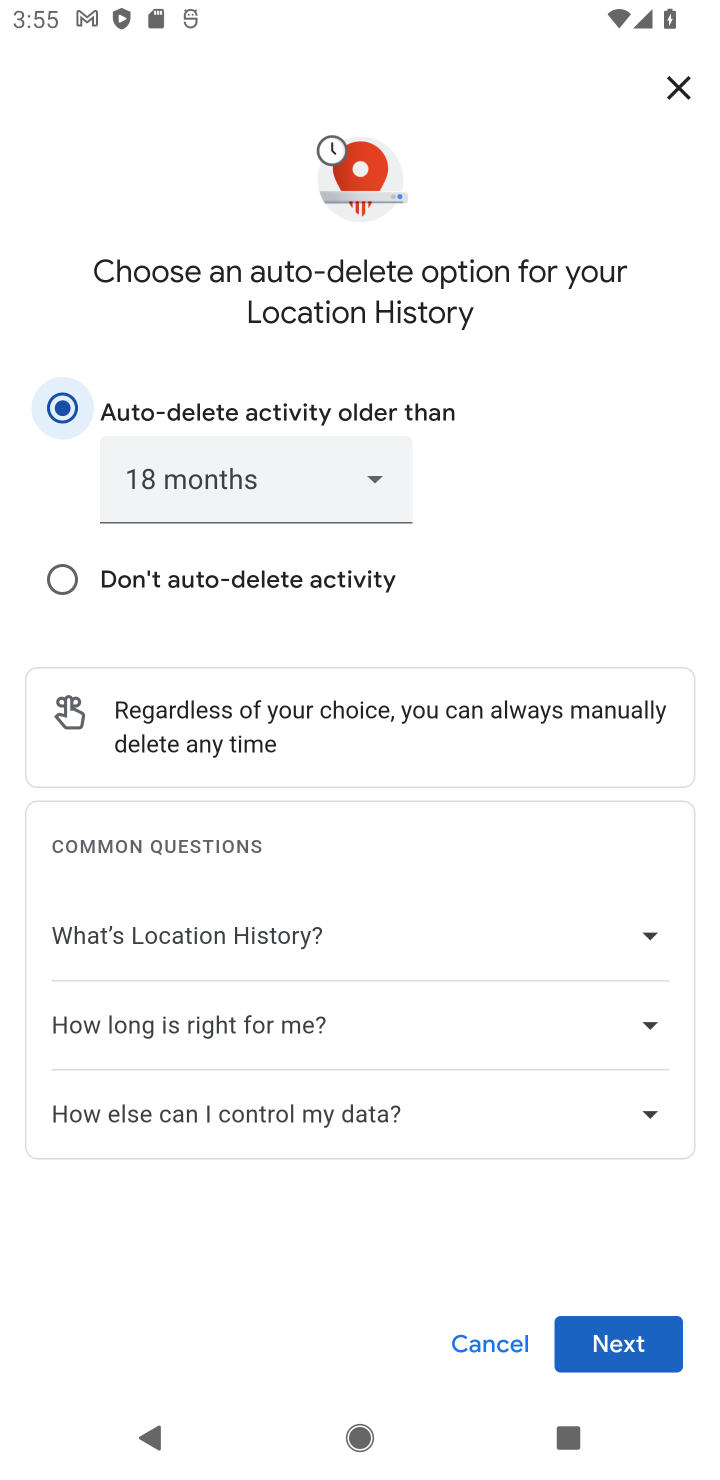
Step 29: click (637, 1333)
Your task to perform on an android device: delete location history Image 30: 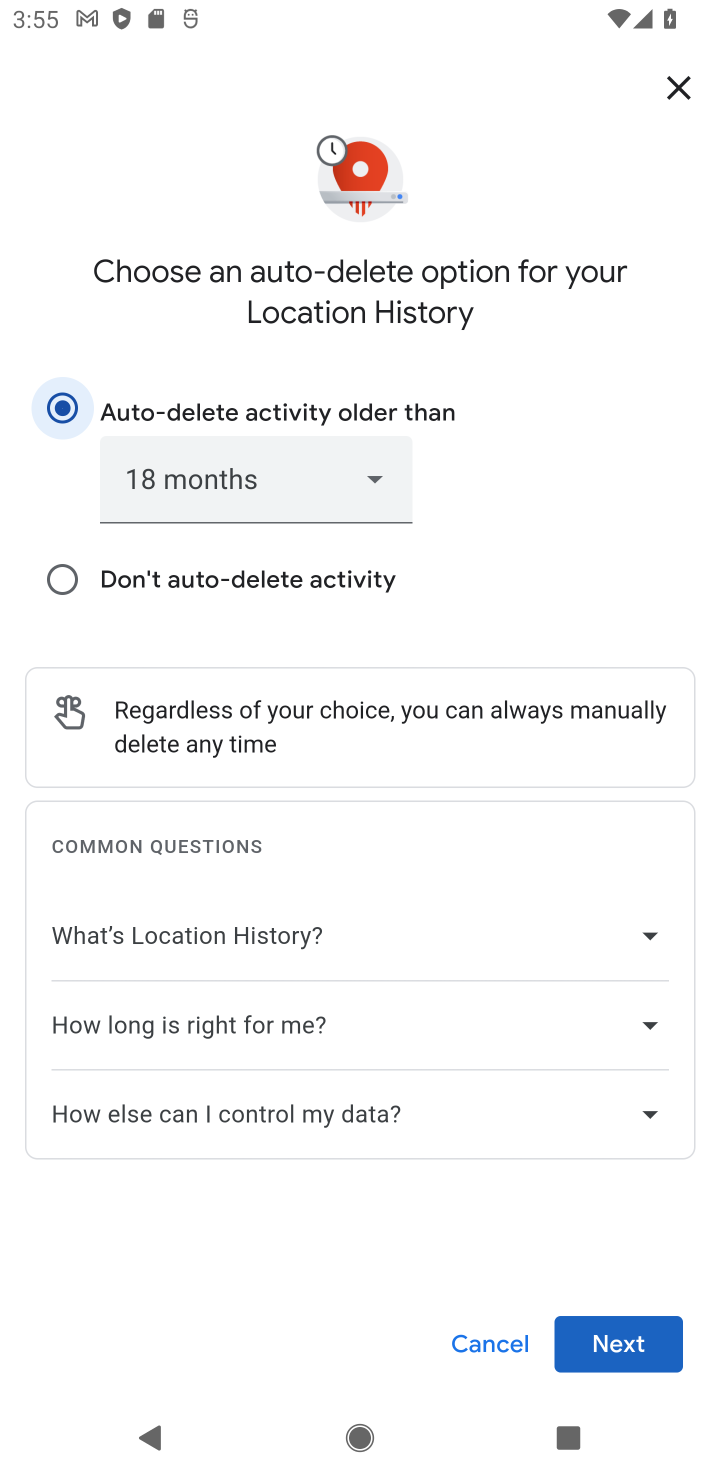
Step 30: click (637, 1333)
Your task to perform on an android device: delete location history Image 31: 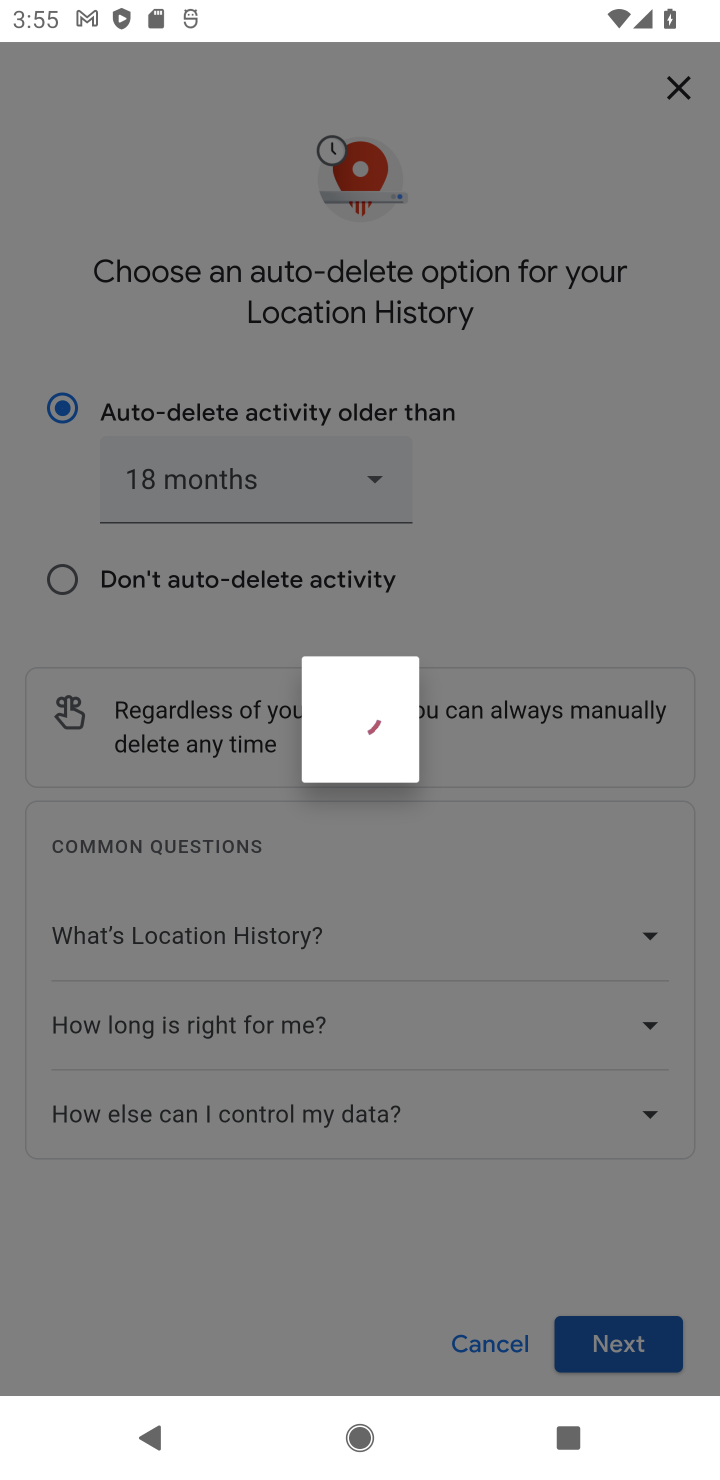
Step 31: click (635, 1333)
Your task to perform on an android device: delete location history Image 32: 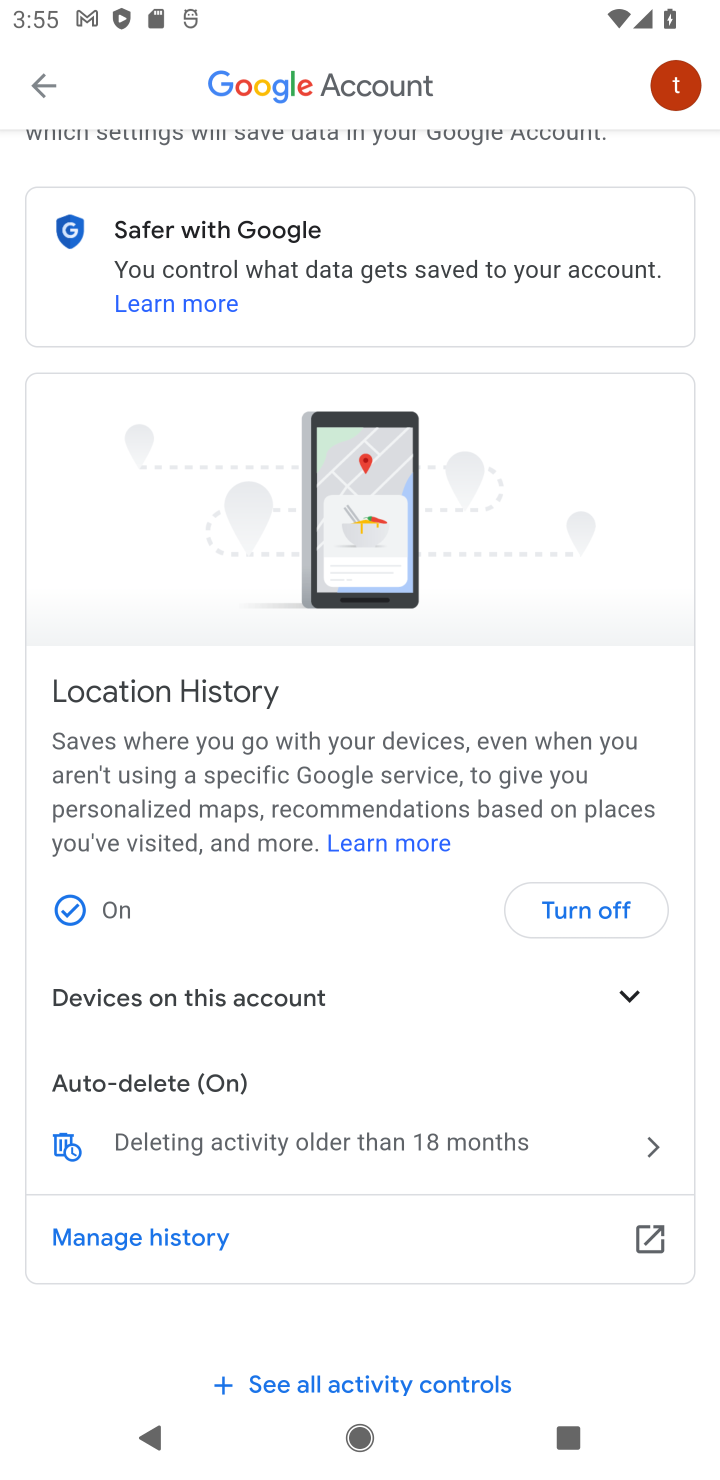
Step 32: task complete